Your task to perform on an android device: Look up the best rated kitchen knives on Amazon. Image 0: 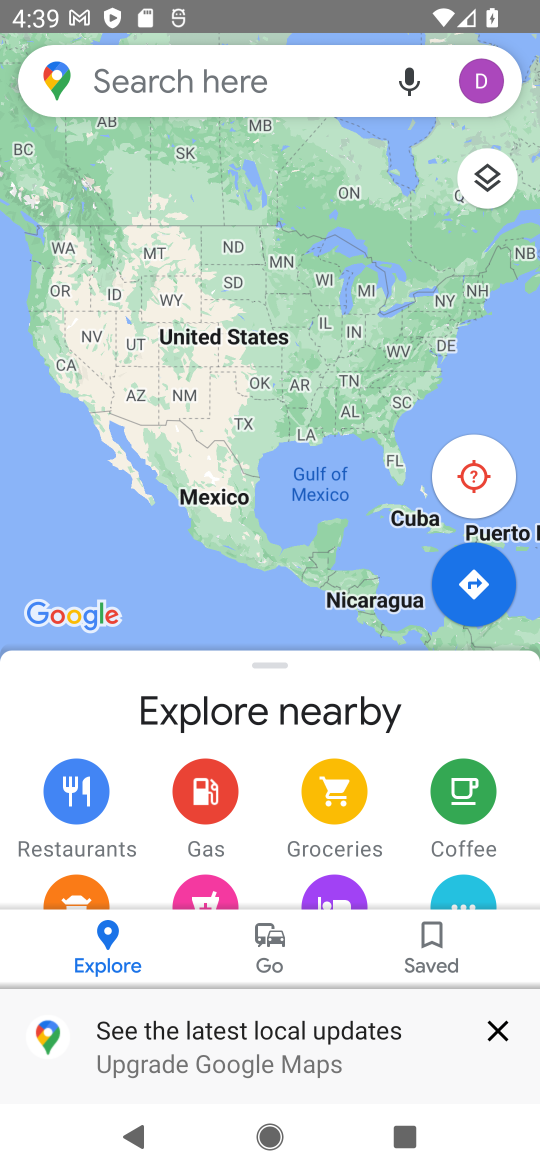
Step 0: press home button
Your task to perform on an android device: Look up the best rated kitchen knives on Amazon. Image 1: 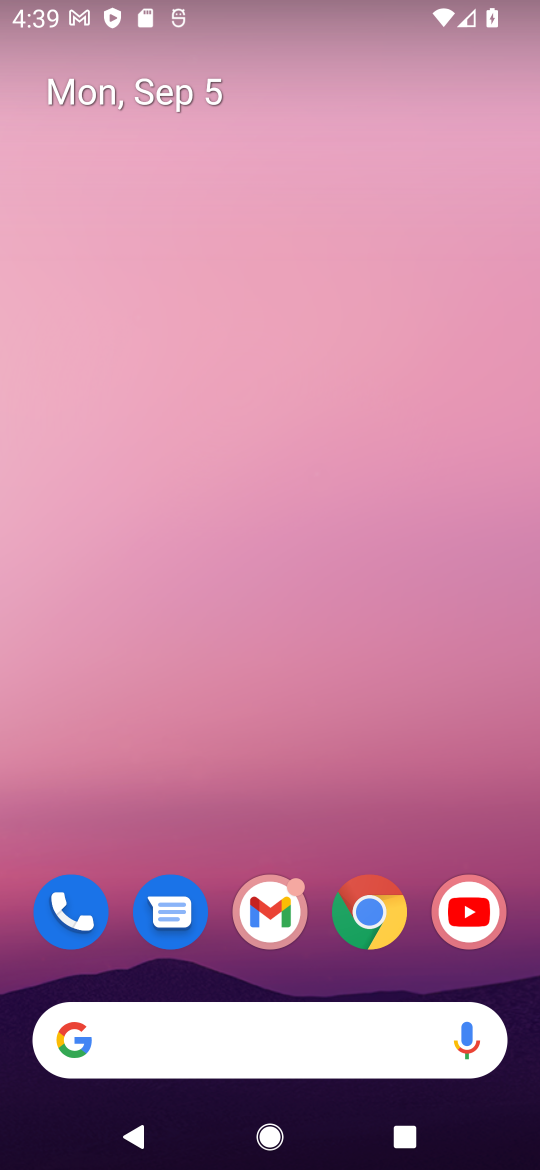
Step 1: click (380, 927)
Your task to perform on an android device: Look up the best rated kitchen knives on Amazon. Image 2: 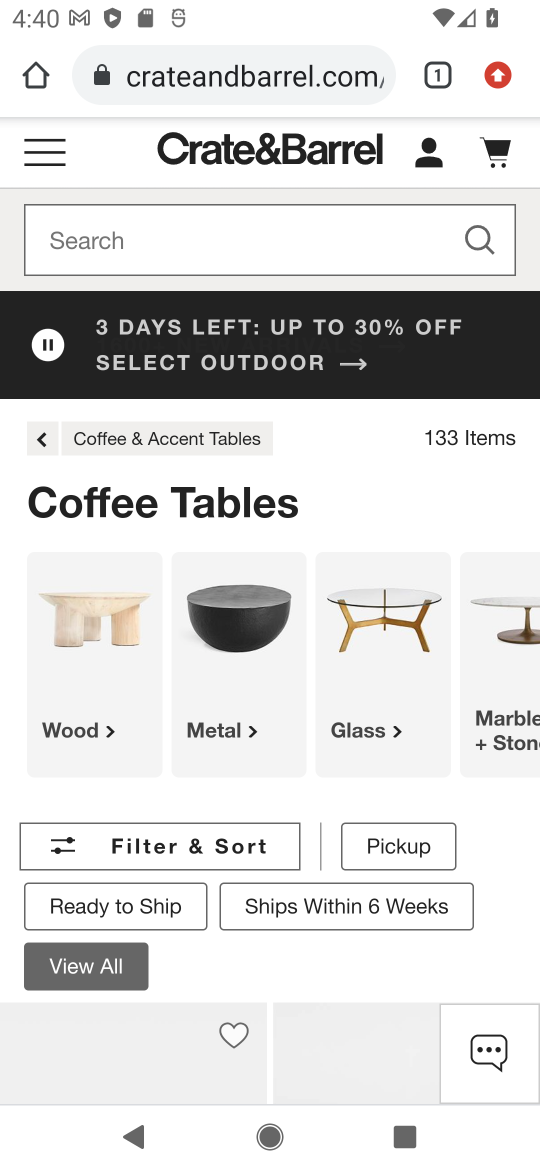
Step 2: click (256, 77)
Your task to perform on an android device: Look up the best rated kitchen knives on Amazon. Image 3: 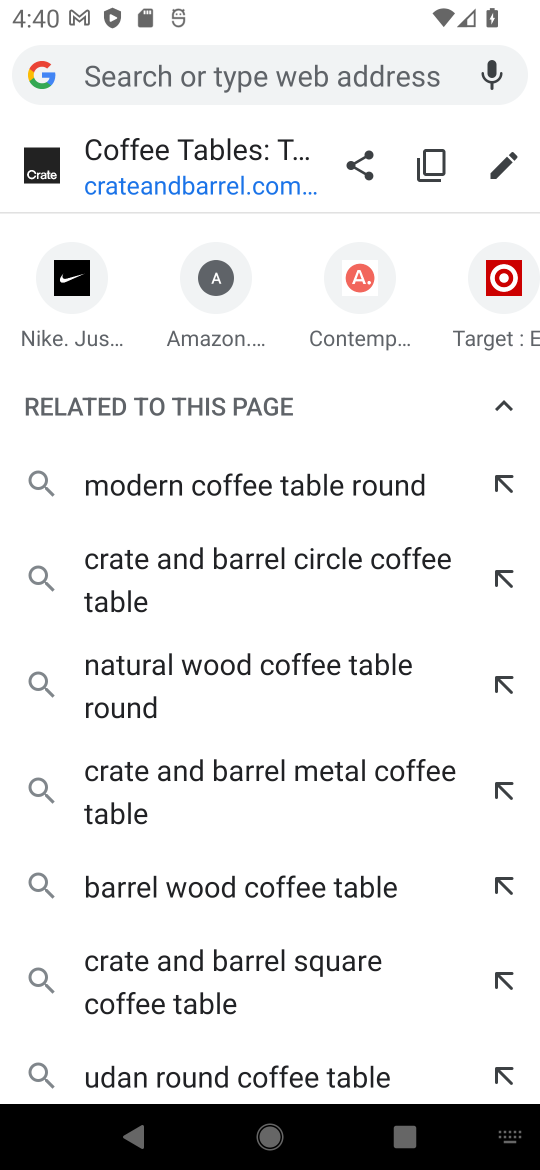
Step 3: type "amazon"
Your task to perform on an android device: Look up the best rated kitchen knives on Amazon. Image 4: 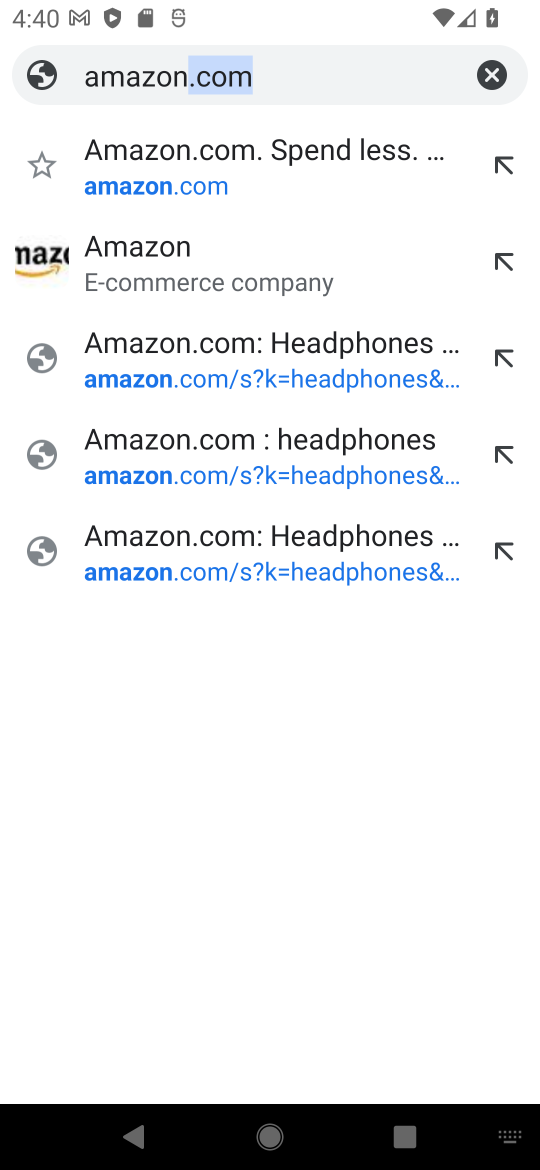
Step 4: press enter
Your task to perform on an android device: Look up the best rated kitchen knives on Amazon. Image 5: 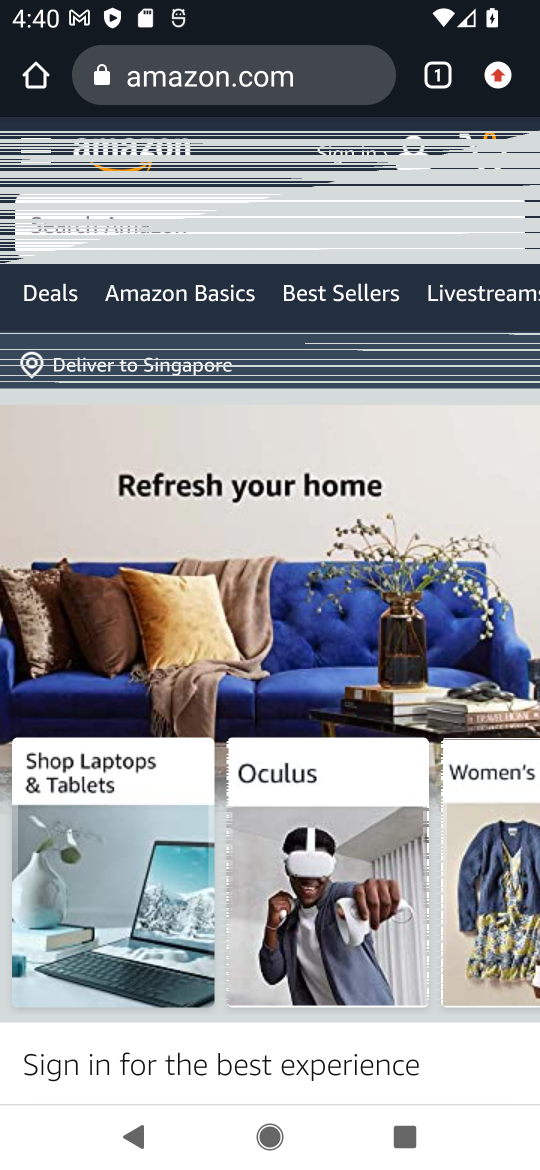
Step 5: click (264, 234)
Your task to perform on an android device: Look up the best rated kitchen knives on Amazon. Image 6: 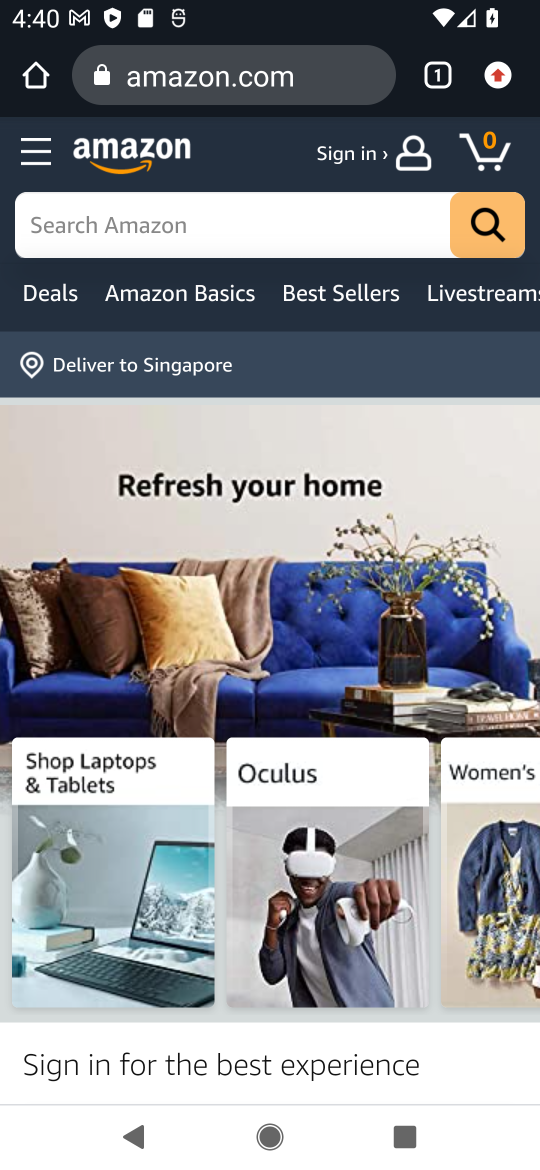
Step 6: click (269, 228)
Your task to perform on an android device: Look up the best rated kitchen knives on Amazon. Image 7: 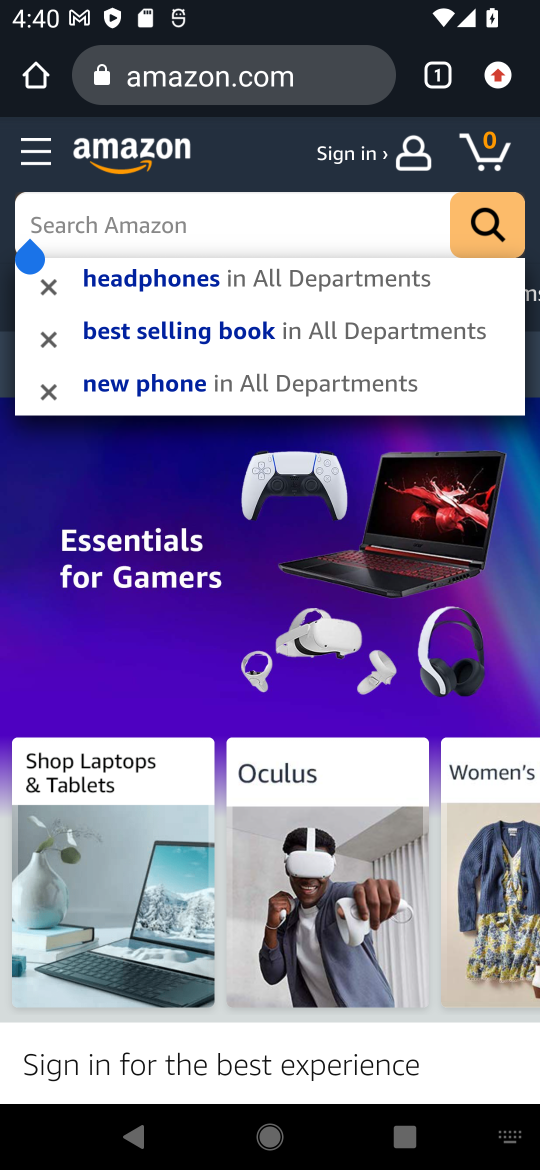
Step 7: type "kitchen knives"
Your task to perform on an android device: Look up the best rated kitchen knives on Amazon. Image 8: 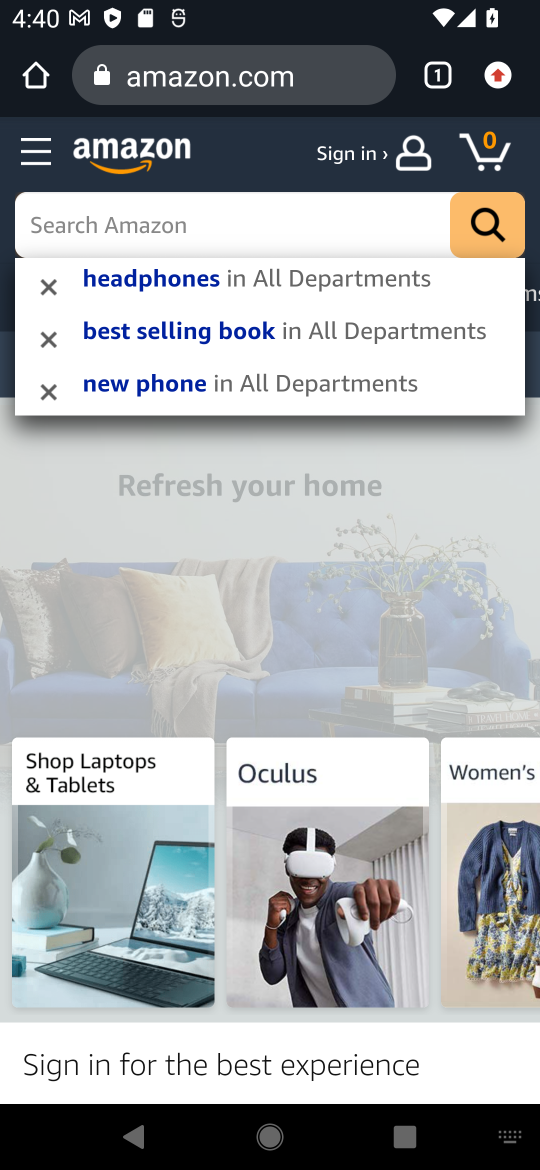
Step 8: type ""
Your task to perform on an android device: Look up the best rated kitchen knives on Amazon. Image 9: 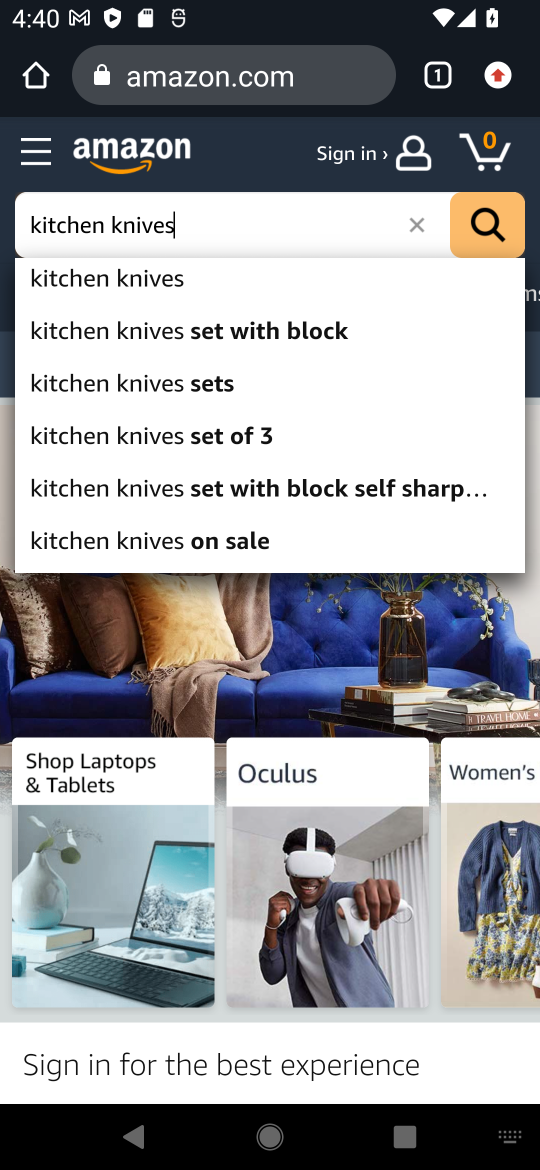
Step 9: press enter
Your task to perform on an android device: Look up the best rated kitchen knives on Amazon. Image 10: 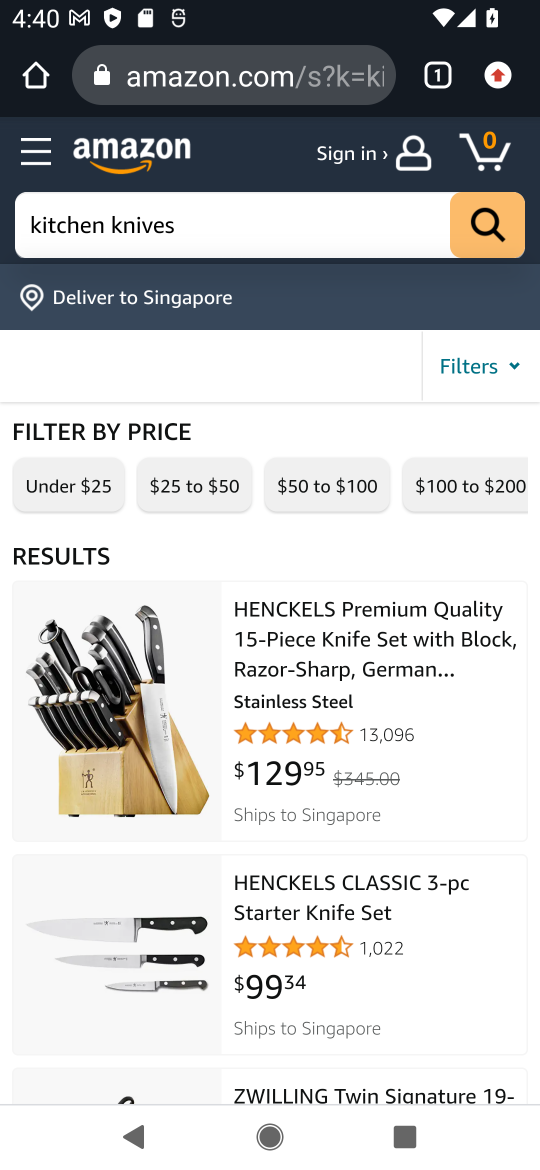
Step 10: click (490, 357)
Your task to perform on an android device: Look up the best rated kitchen knives on Amazon. Image 11: 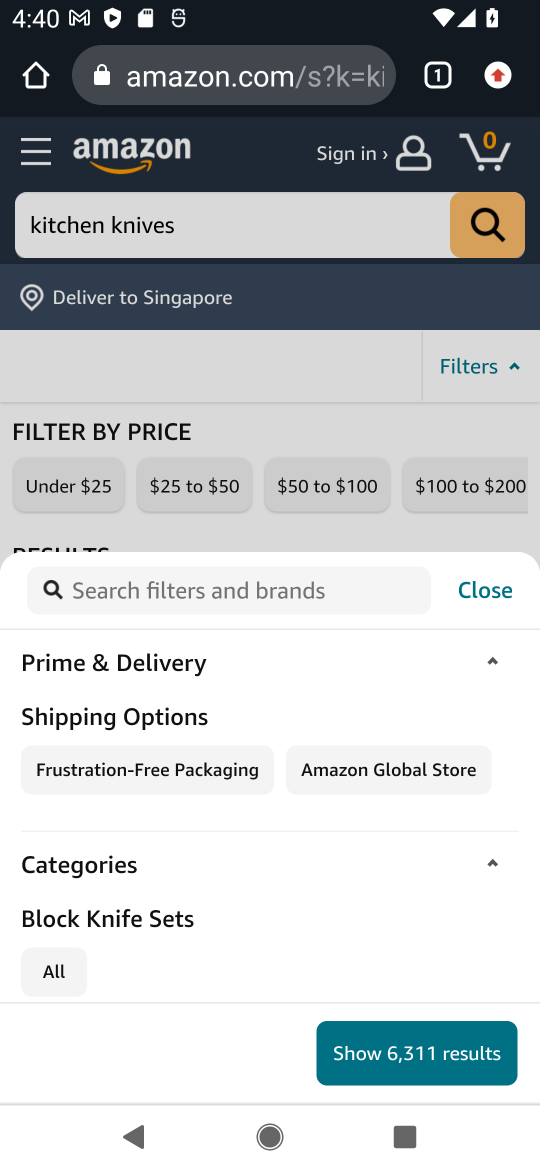
Step 11: drag from (428, 865) to (431, 610)
Your task to perform on an android device: Look up the best rated kitchen knives on Amazon. Image 12: 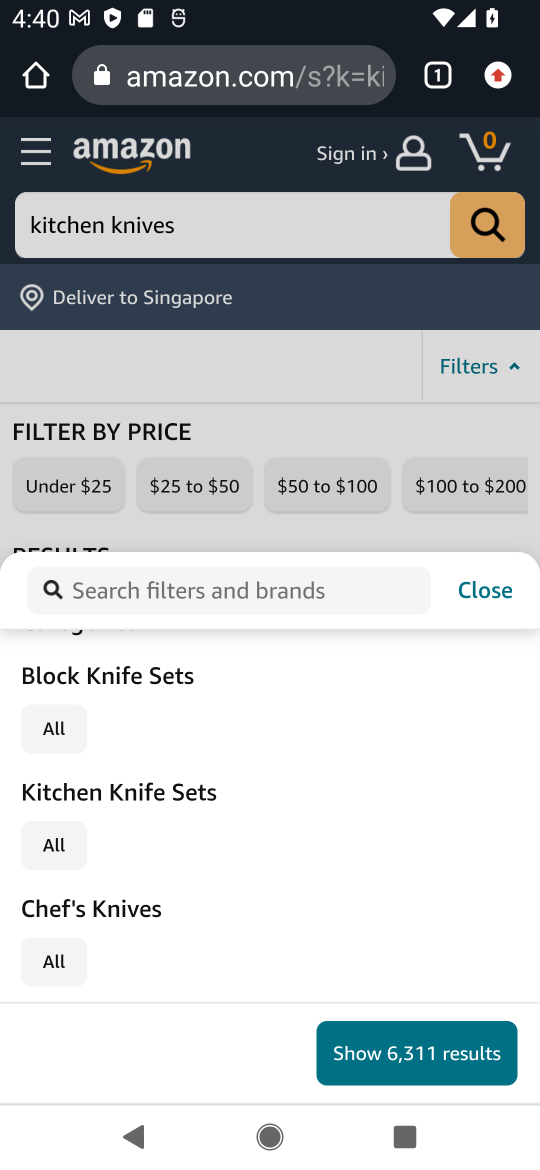
Step 12: drag from (440, 867) to (433, 678)
Your task to perform on an android device: Look up the best rated kitchen knives on Amazon. Image 13: 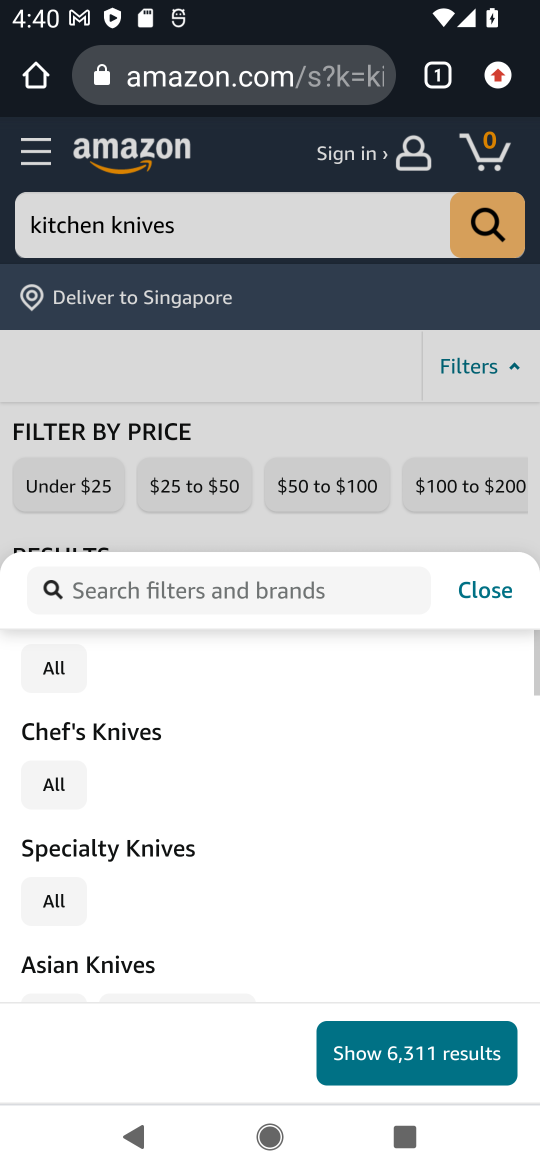
Step 13: drag from (439, 889) to (443, 680)
Your task to perform on an android device: Look up the best rated kitchen knives on Amazon. Image 14: 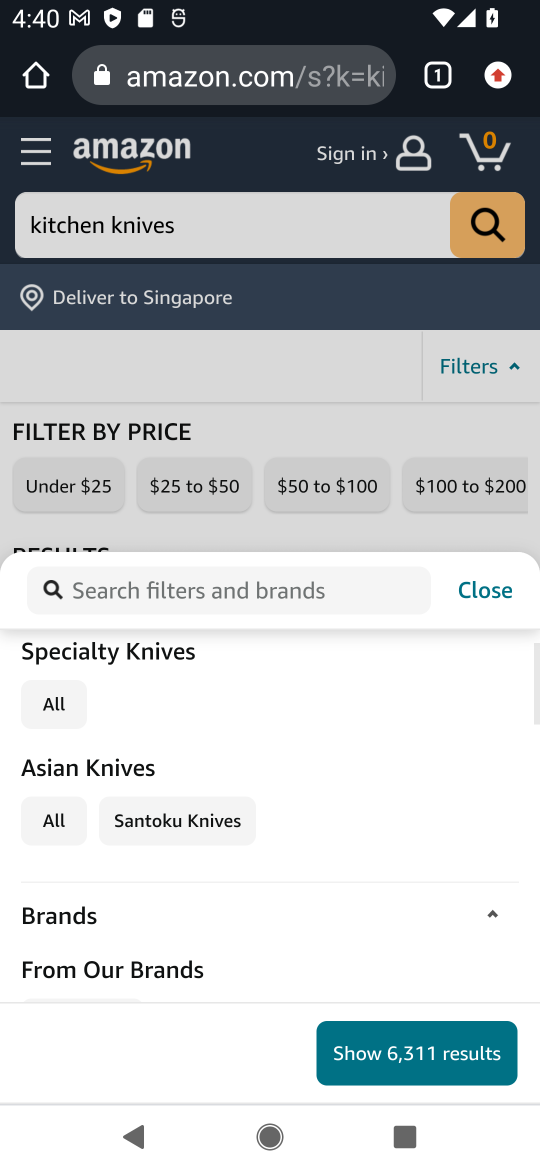
Step 14: drag from (436, 855) to (441, 734)
Your task to perform on an android device: Look up the best rated kitchen knives on Amazon. Image 15: 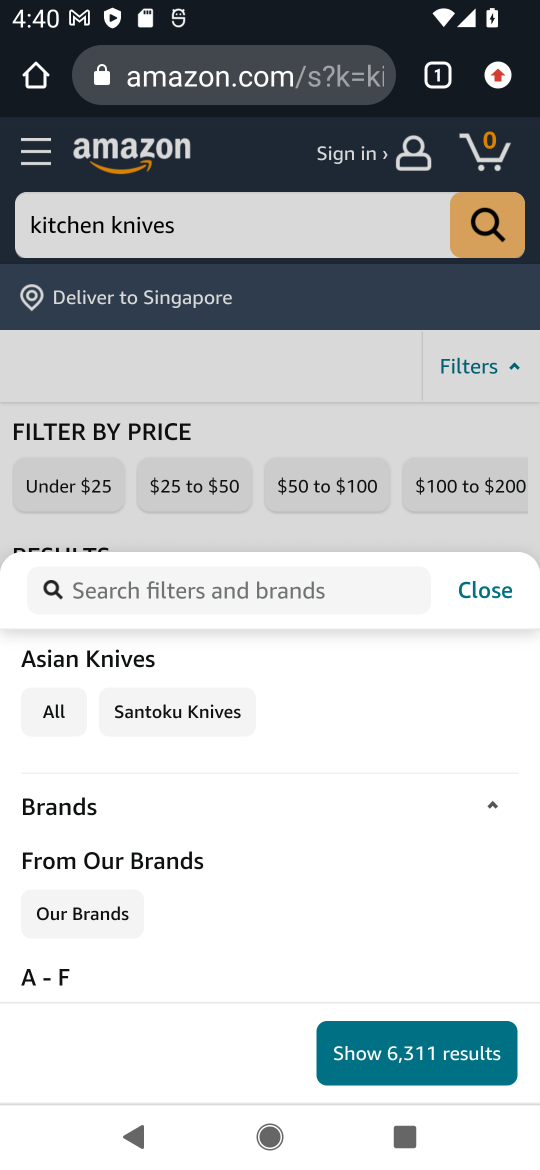
Step 15: drag from (449, 839) to (437, 593)
Your task to perform on an android device: Look up the best rated kitchen knives on Amazon. Image 16: 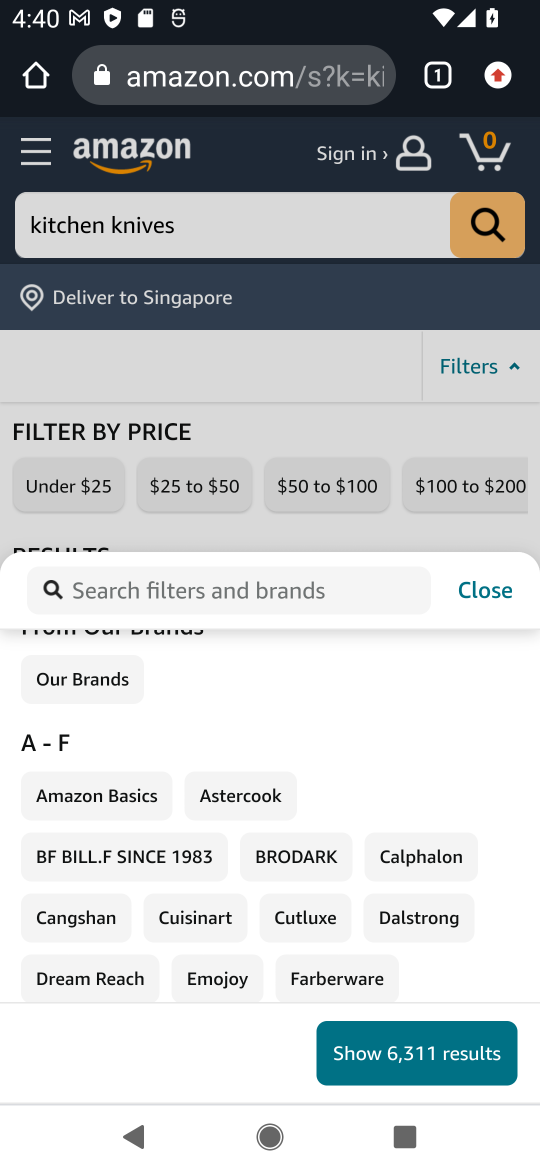
Step 16: click (506, 700)
Your task to perform on an android device: Look up the best rated kitchen knives on Amazon. Image 17: 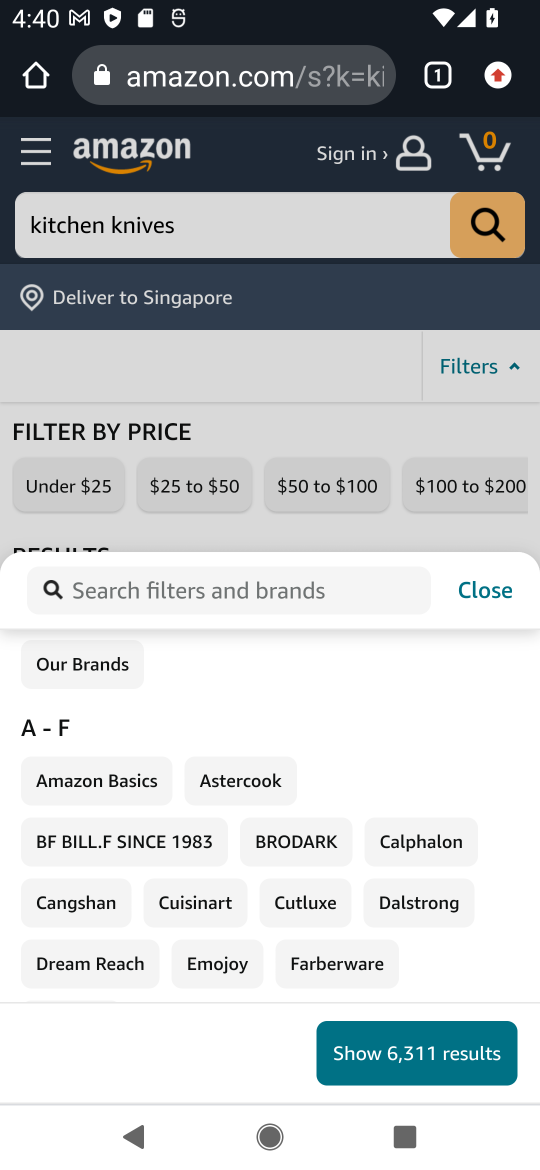
Step 17: drag from (433, 750) to (430, 664)
Your task to perform on an android device: Look up the best rated kitchen knives on Amazon. Image 18: 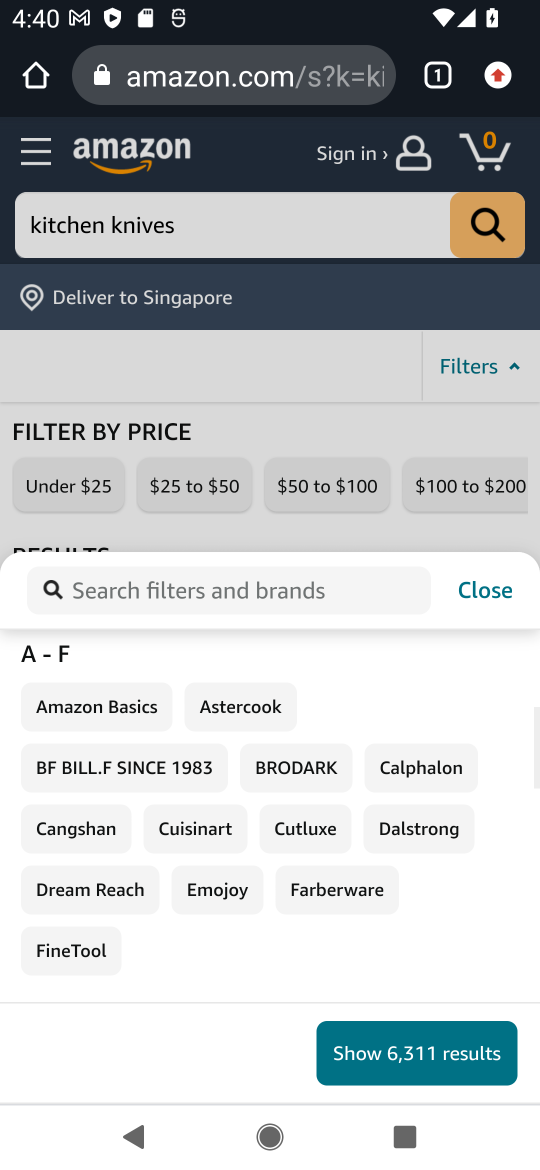
Step 18: drag from (432, 888) to (426, 666)
Your task to perform on an android device: Look up the best rated kitchen knives on Amazon. Image 19: 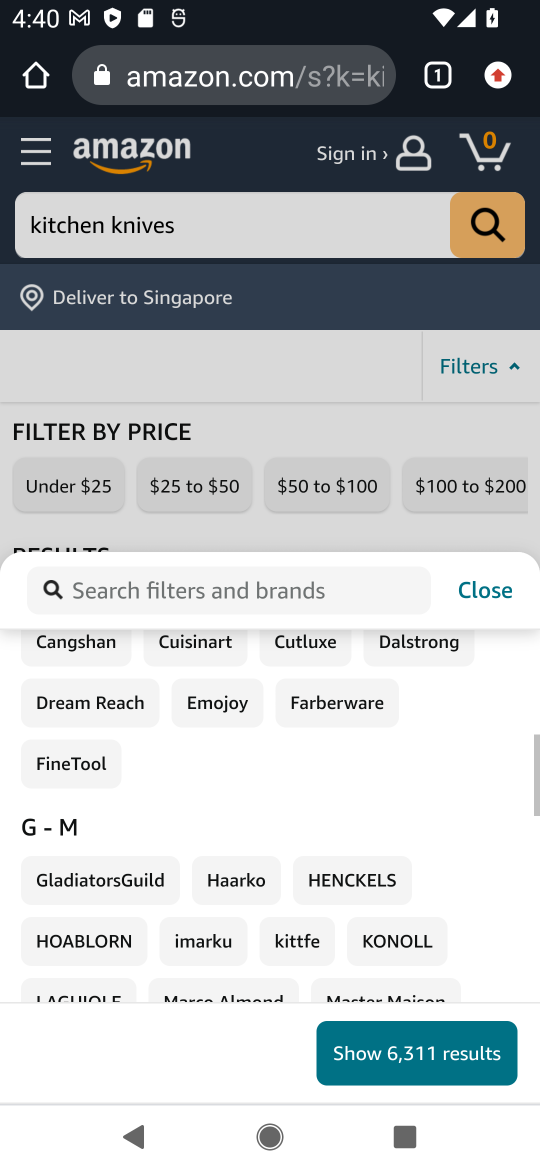
Step 19: drag from (410, 882) to (400, 667)
Your task to perform on an android device: Look up the best rated kitchen knives on Amazon. Image 20: 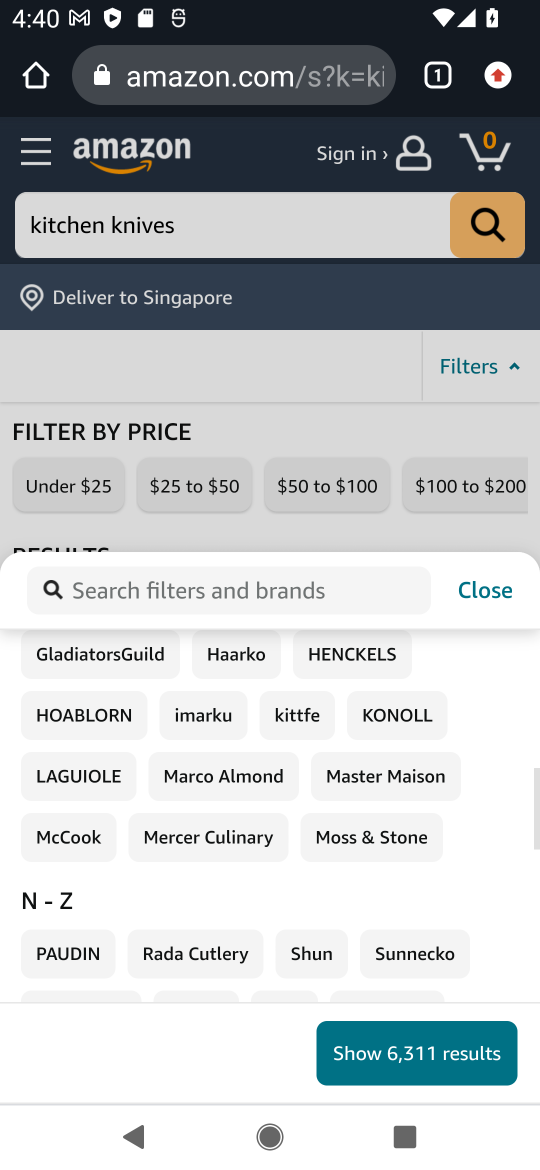
Step 20: click (406, 678)
Your task to perform on an android device: Look up the best rated kitchen knives on Amazon. Image 21: 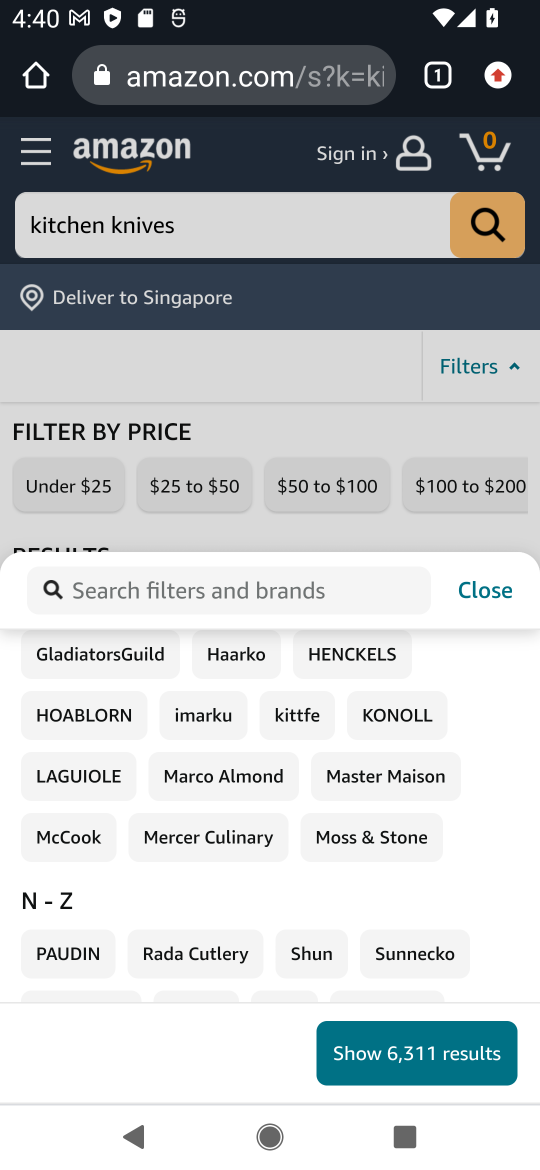
Step 21: drag from (417, 838) to (434, 586)
Your task to perform on an android device: Look up the best rated kitchen knives on Amazon. Image 22: 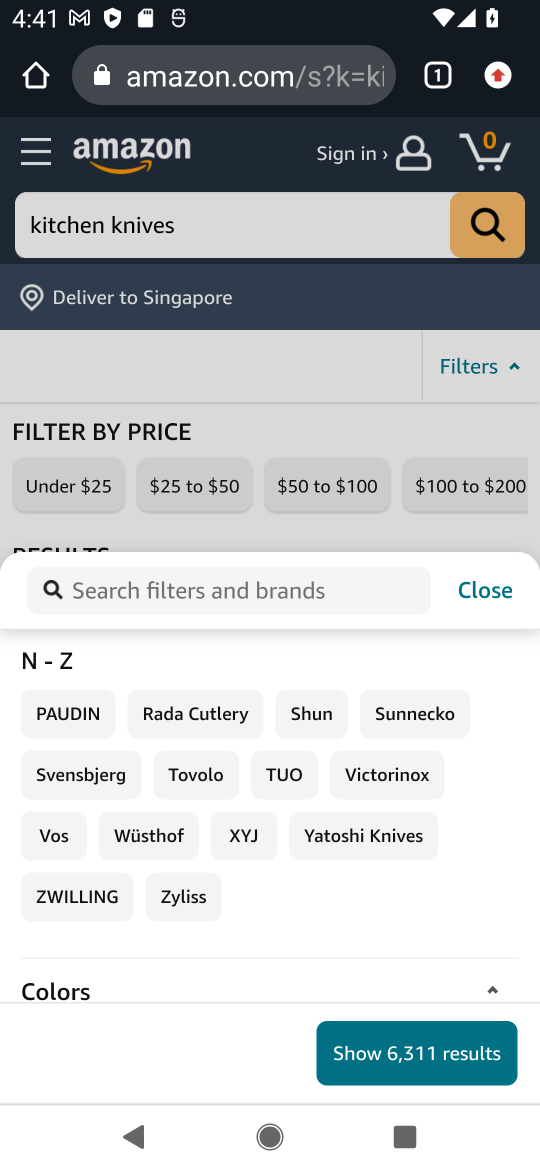
Step 22: drag from (393, 756) to (405, 631)
Your task to perform on an android device: Look up the best rated kitchen knives on Amazon. Image 23: 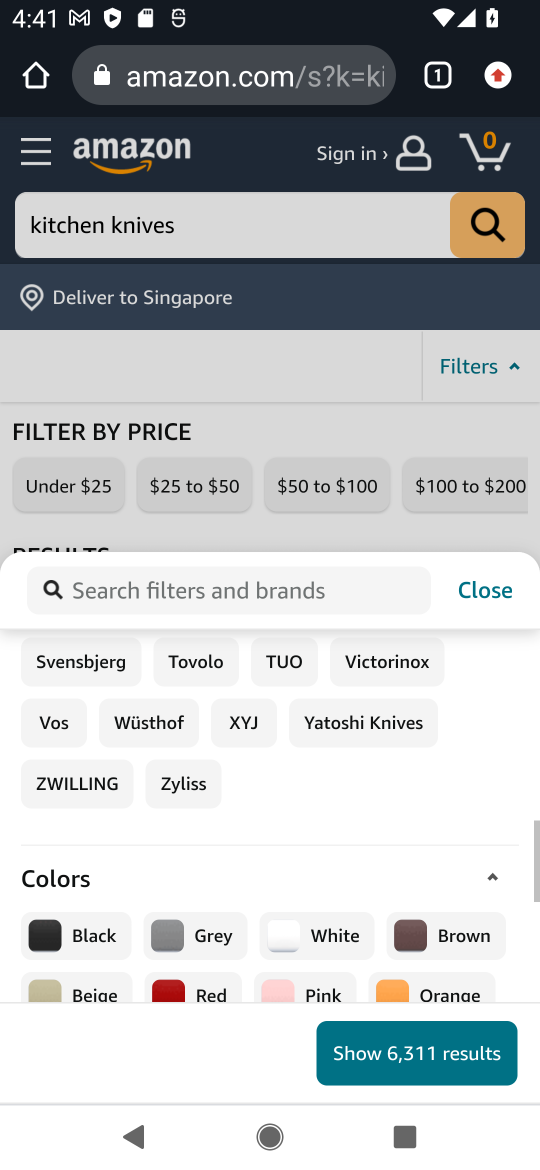
Step 23: drag from (377, 926) to (386, 637)
Your task to perform on an android device: Look up the best rated kitchen knives on Amazon. Image 24: 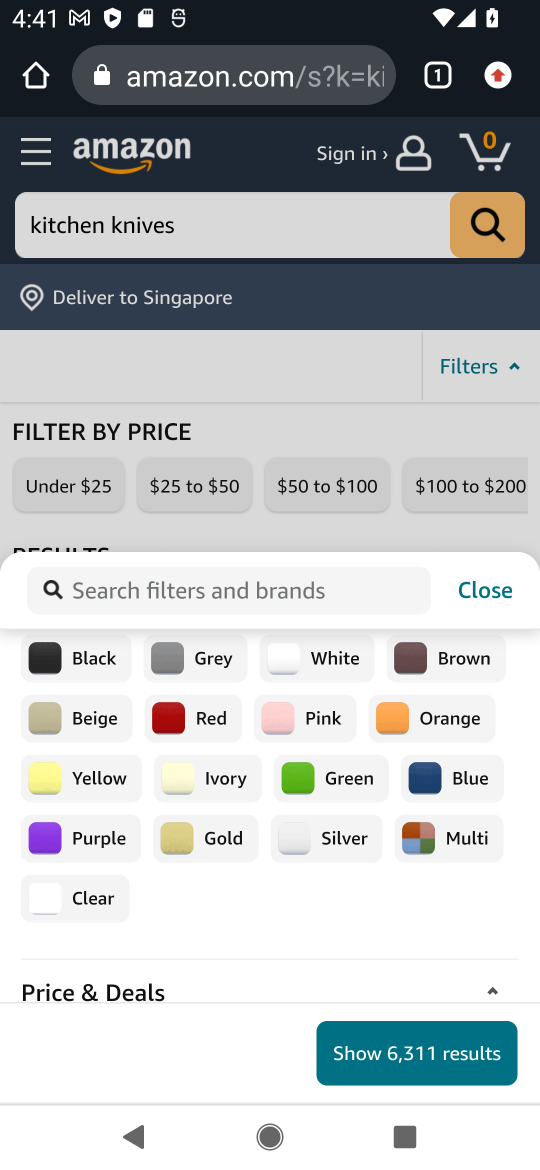
Step 24: drag from (394, 956) to (397, 636)
Your task to perform on an android device: Look up the best rated kitchen knives on Amazon. Image 25: 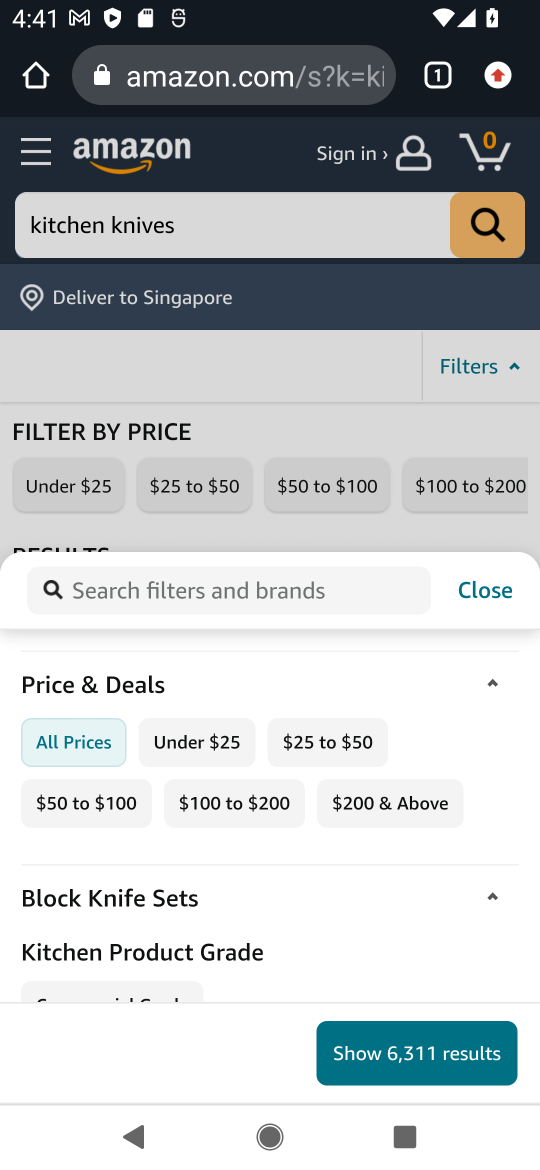
Step 25: drag from (360, 923) to (369, 663)
Your task to perform on an android device: Look up the best rated kitchen knives on Amazon. Image 26: 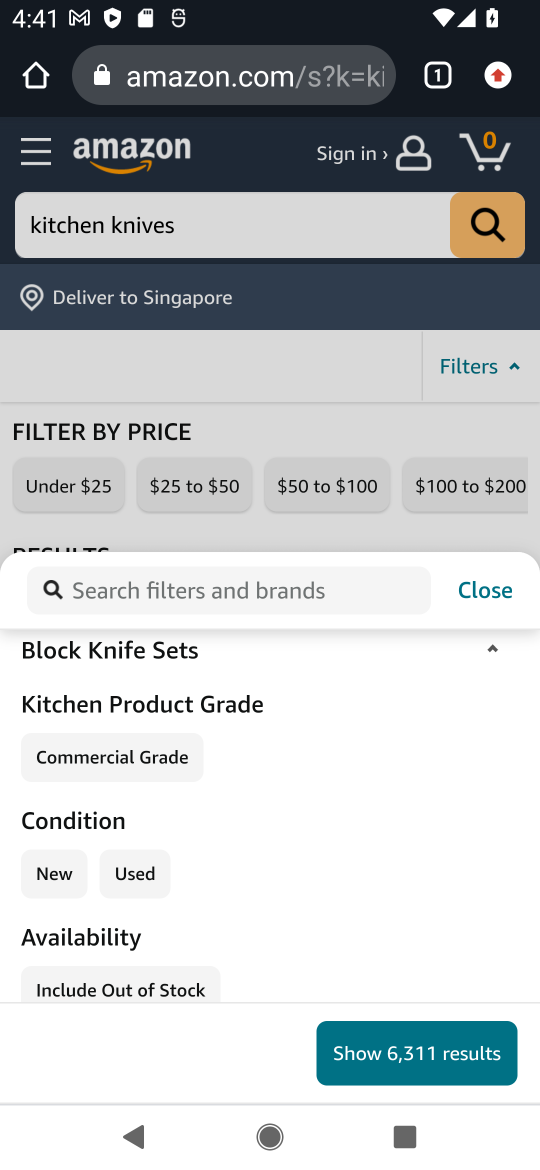
Step 26: drag from (309, 843) to (320, 683)
Your task to perform on an android device: Look up the best rated kitchen knives on Amazon. Image 27: 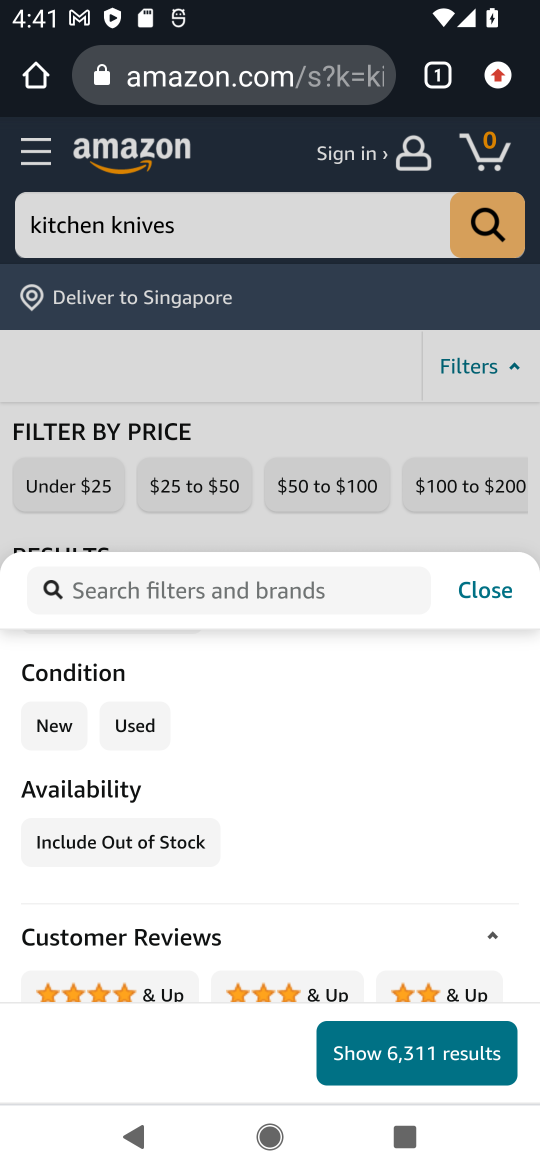
Step 27: click (364, 744)
Your task to perform on an android device: Look up the best rated kitchen knives on Amazon. Image 28: 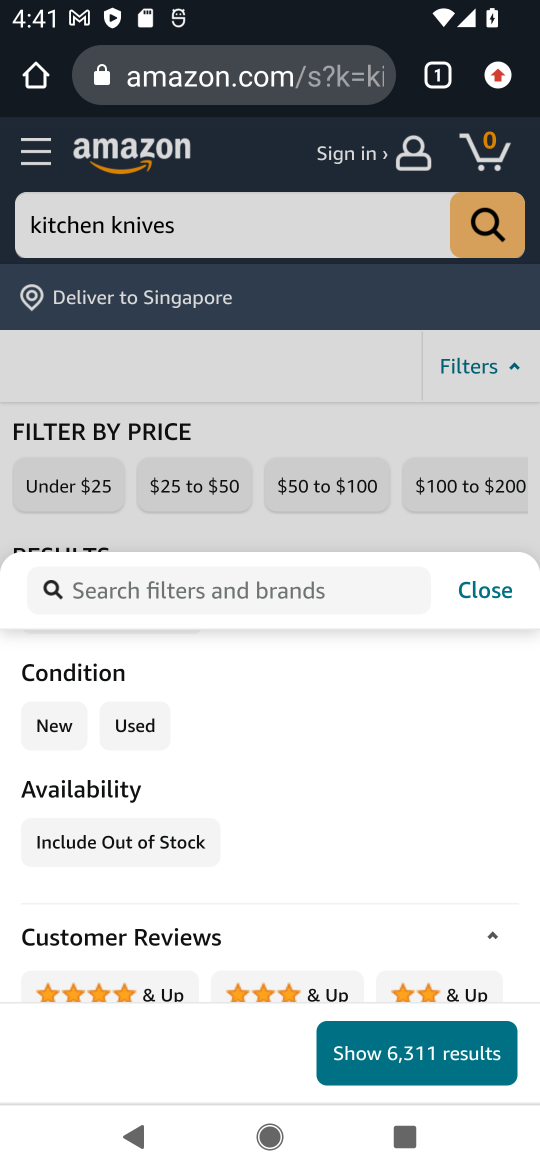
Step 28: drag from (372, 865) to (368, 703)
Your task to perform on an android device: Look up the best rated kitchen knives on Amazon. Image 29: 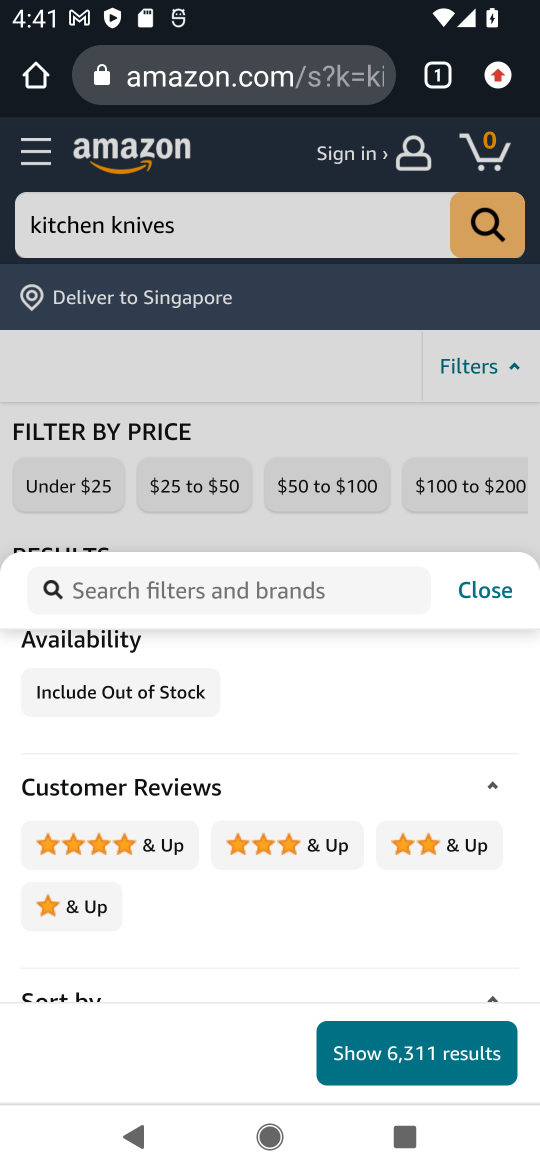
Step 29: click (126, 829)
Your task to perform on an android device: Look up the best rated kitchen knives on Amazon. Image 30: 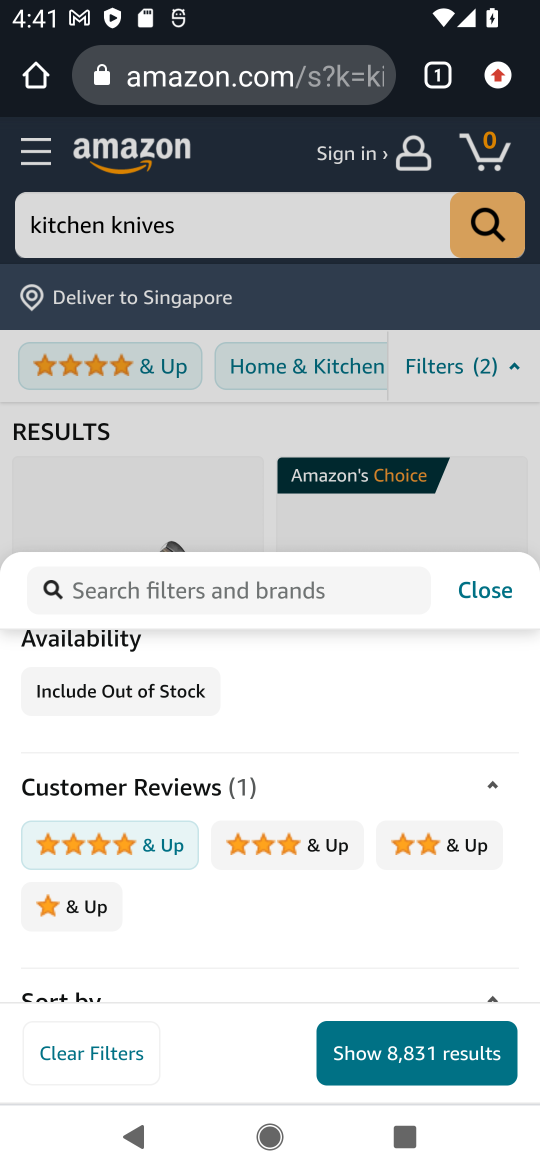
Step 30: drag from (389, 888) to (421, 1050)
Your task to perform on an android device: Look up the best rated kitchen knives on Amazon. Image 31: 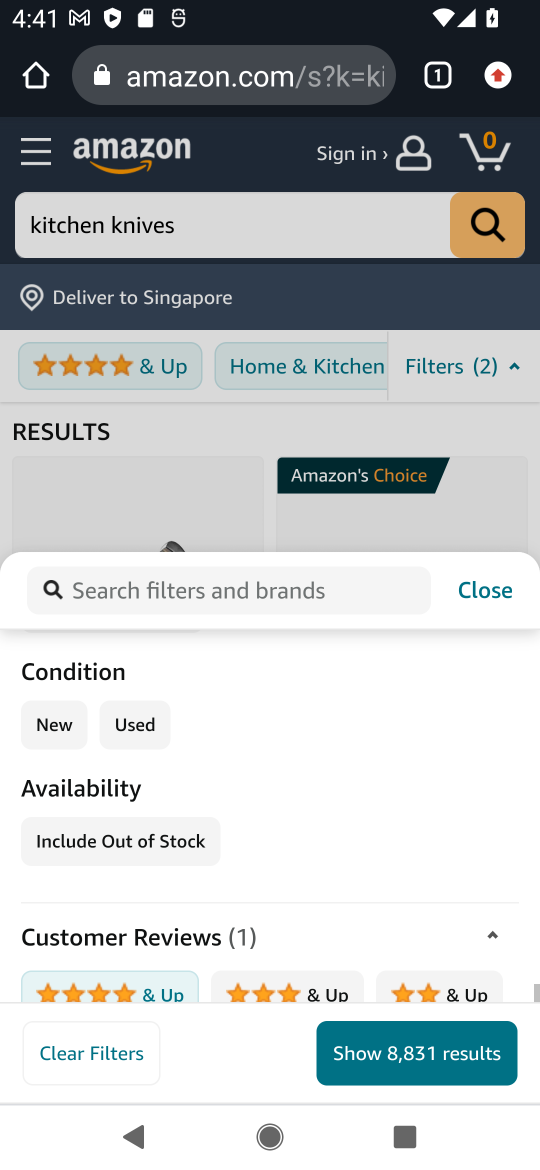
Step 31: drag from (371, 771) to (356, 961)
Your task to perform on an android device: Look up the best rated kitchen knives on Amazon. Image 32: 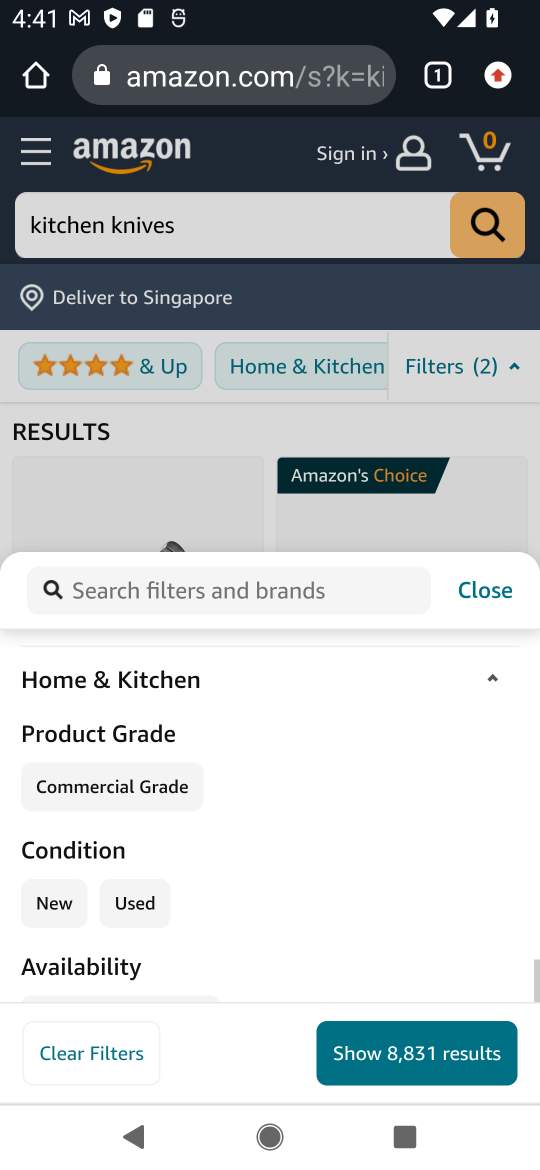
Step 32: drag from (339, 720) to (364, 961)
Your task to perform on an android device: Look up the best rated kitchen knives on Amazon. Image 33: 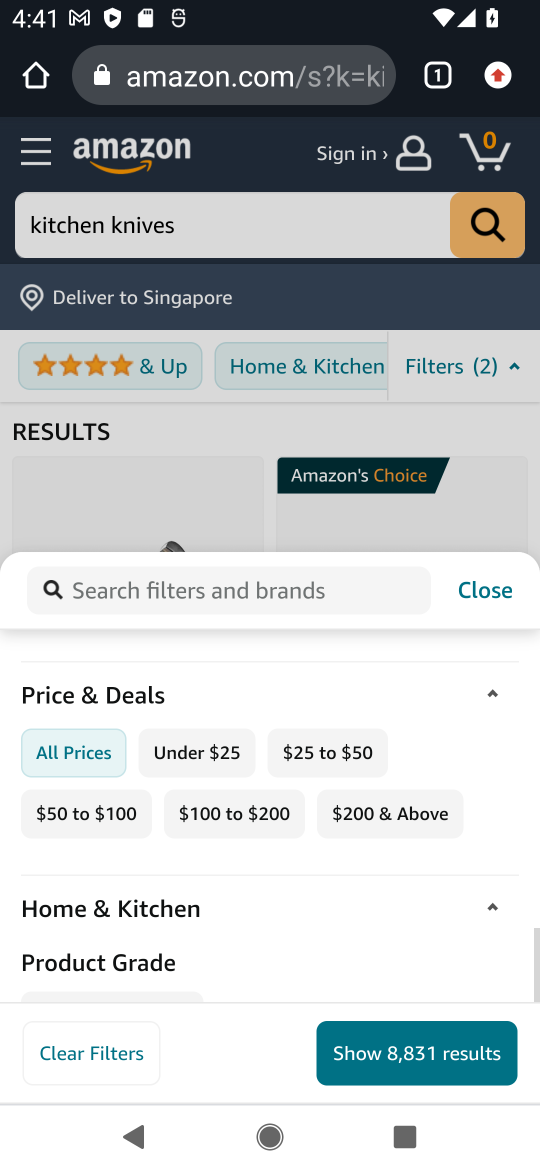
Step 33: drag from (368, 768) to (375, 894)
Your task to perform on an android device: Look up the best rated kitchen knives on Amazon. Image 34: 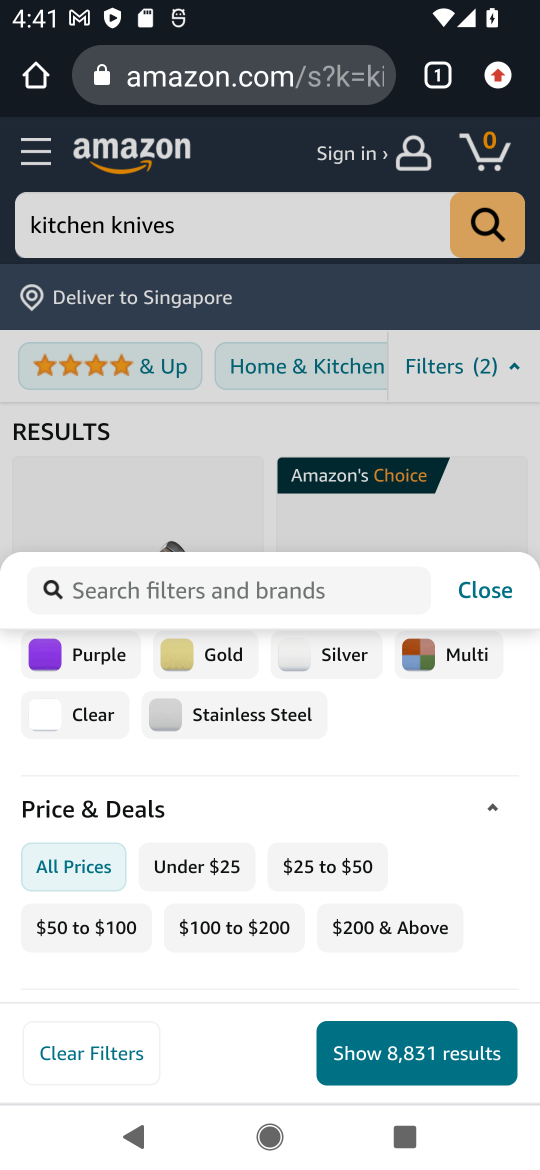
Step 34: drag from (407, 765) to (406, 1049)
Your task to perform on an android device: Look up the best rated kitchen knives on Amazon. Image 35: 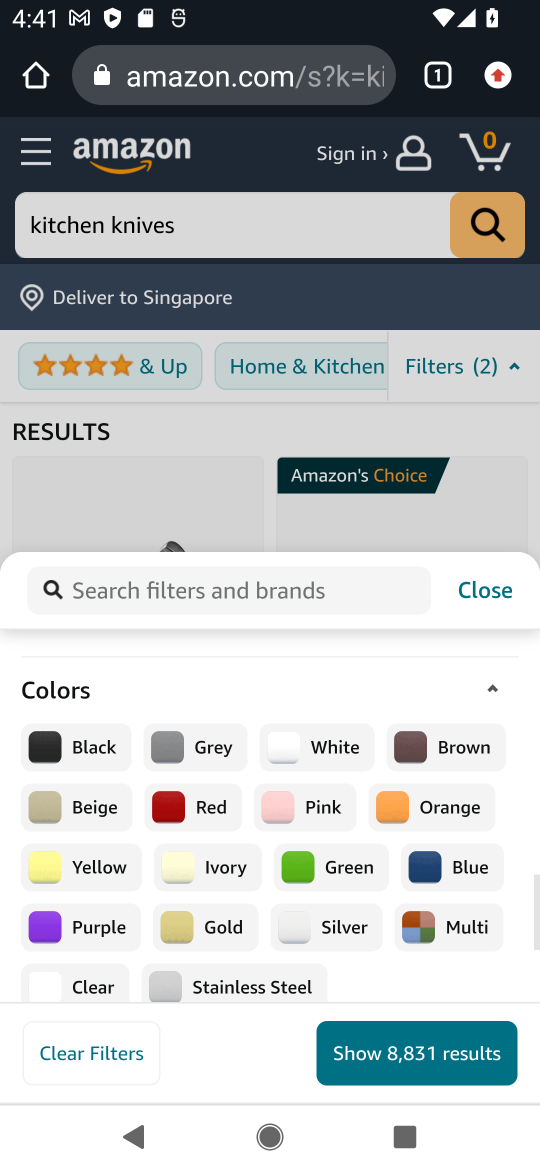
Step 35: drag from (372, 796) to (375, 987)
Your task to perform on an android device: Look up the best rated kitchen knives on Amazon. Image 36: 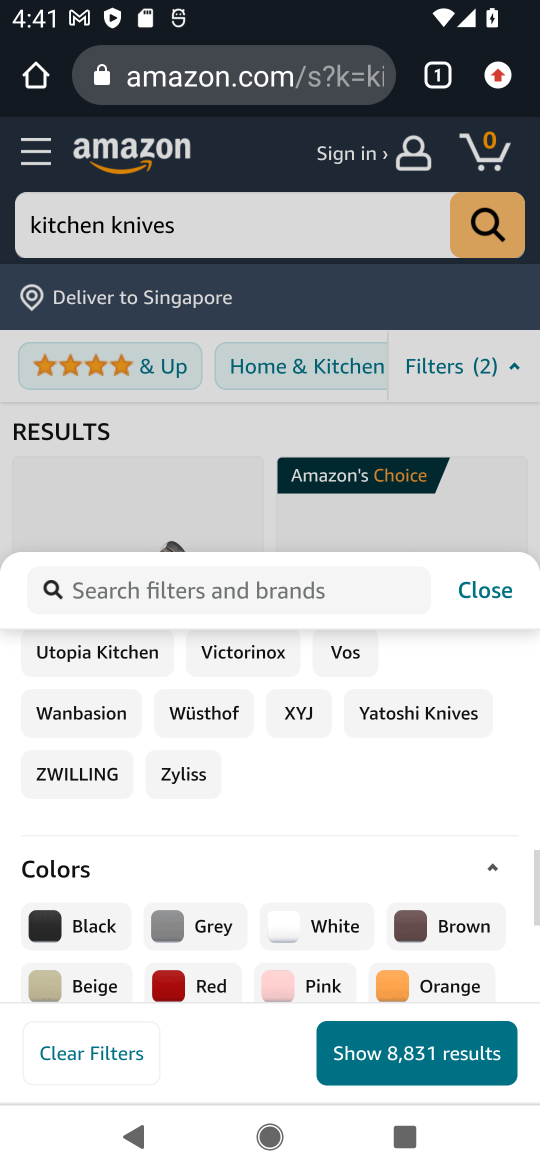
Step 36: drag from (337, 716) to (341, 920)
Your task to perform on an android device: Look up the best rated kitchen knives on Amazon. Image 37: 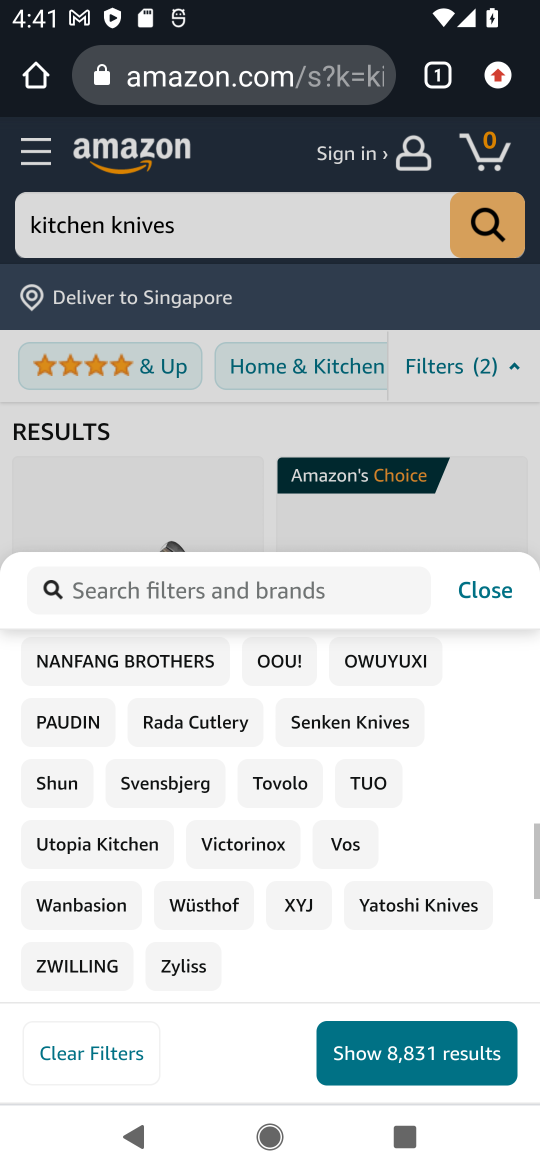
Step 37: drag from (379, 699) to (395, 947)
Your task to perform on an android device: Look up the best rated kitchen knives on Amazon. Image 38: 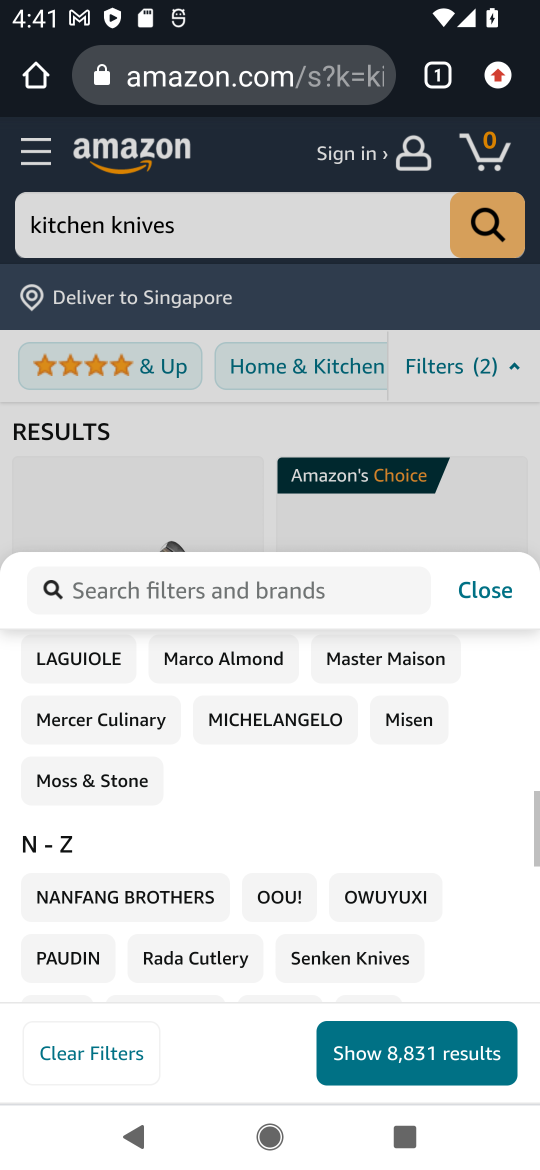
Step 38: drag from (361, 850) to (361, 903)
Your task to perform on an android device: Look up the best rated kitchen knives on Amazon. Image 39: 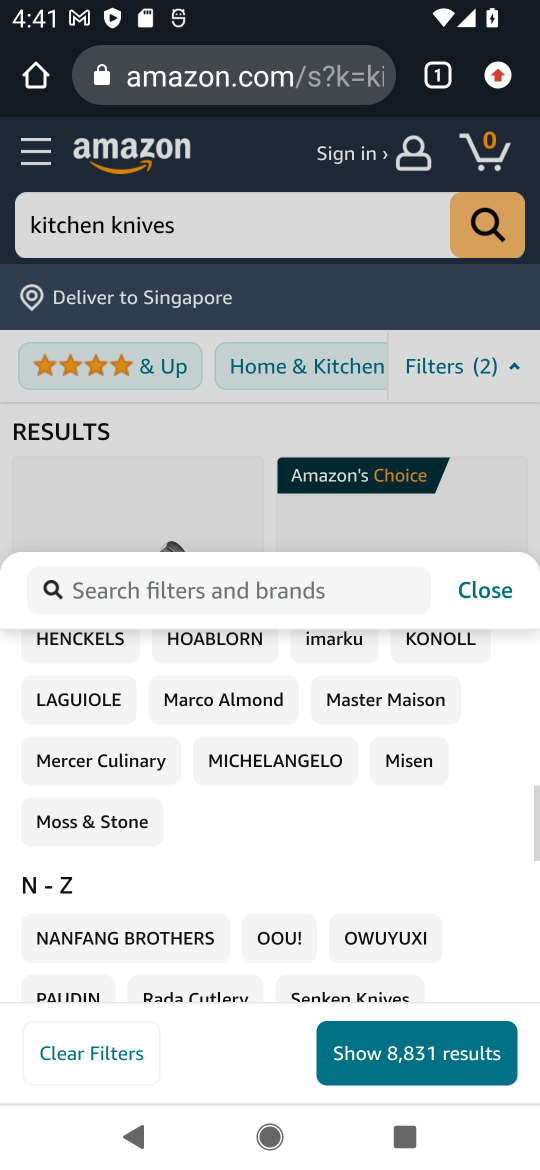
Step 39: drag from (365, 776) to (360, 905)
Your task to perform on an android device: Look up the best rated kitchen knives on Amazon. Image 40: 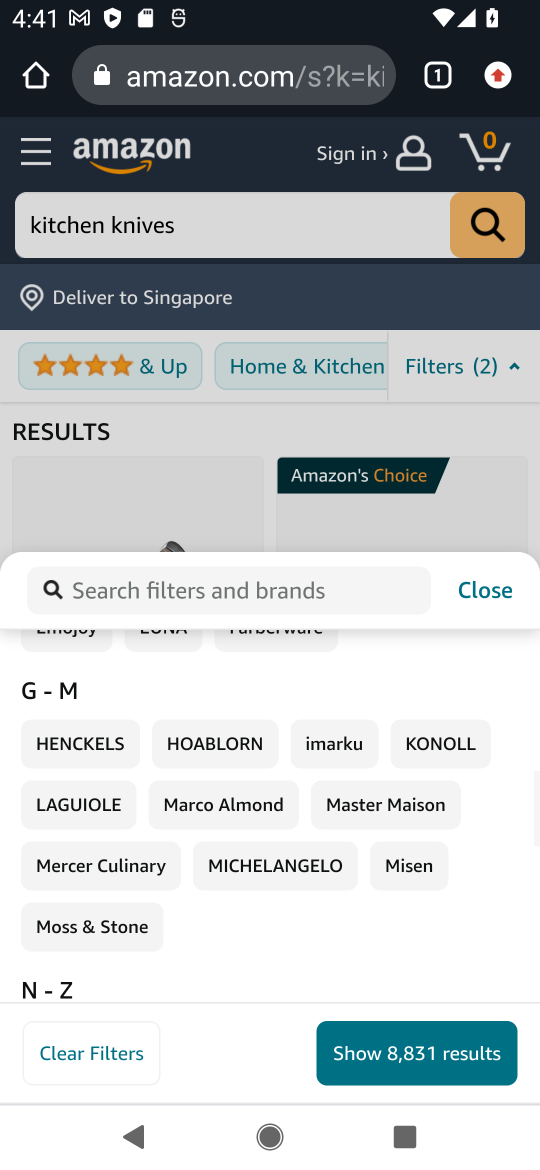
Step 40: drag from (358, 721) to (358, 889)
Your task to perform on an android device: Look up the best rated kitchen knives on Amazon. Image 41: 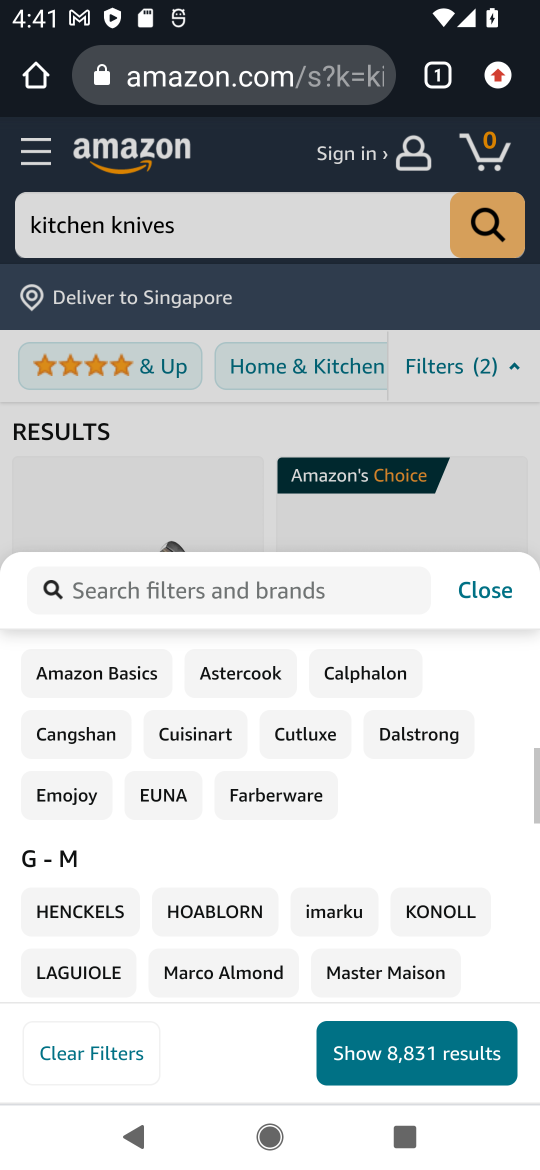
Step 41: click (360, 870)
Your task to perform on an android device: Look up the best rated kitchen knives on Amazon. Image 42: 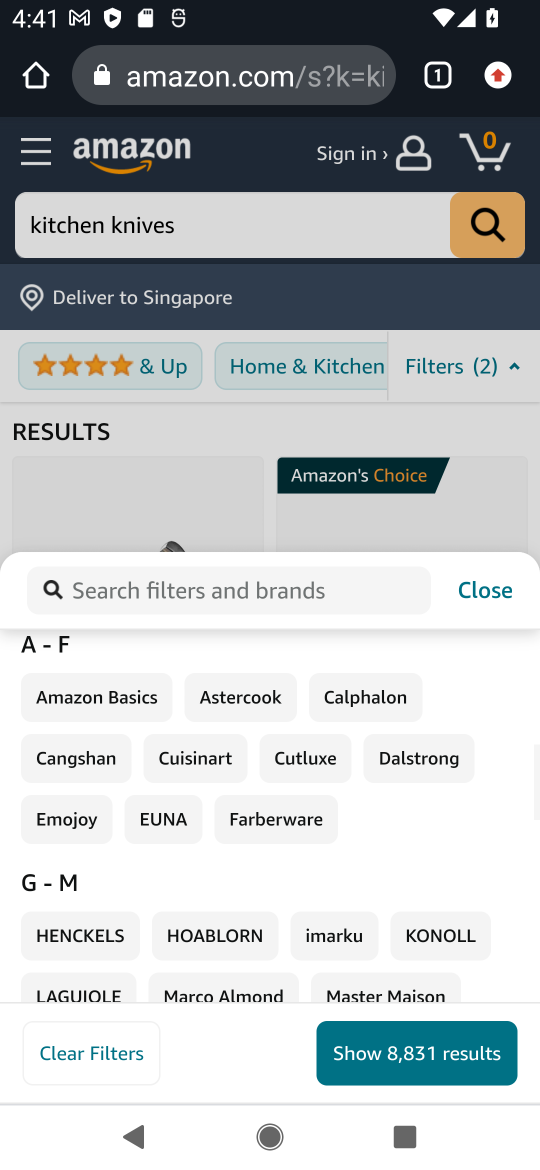
Step 42: drag from (349, 683) to (351, 943)
Your task to perform on an android device: Look up the best rated kitchen knives on Amazon. Image 43: 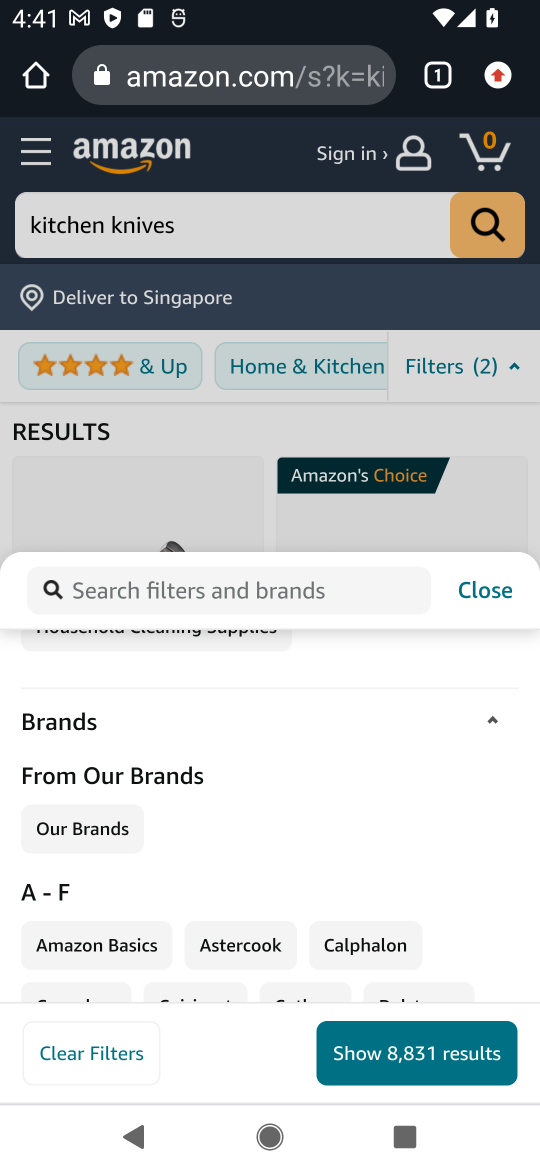
Step 43: drag from (348, 733) to (351, 919)
Your task to perform on an android device: Look up the best rated kitchen knives on Amazon. Image 44: 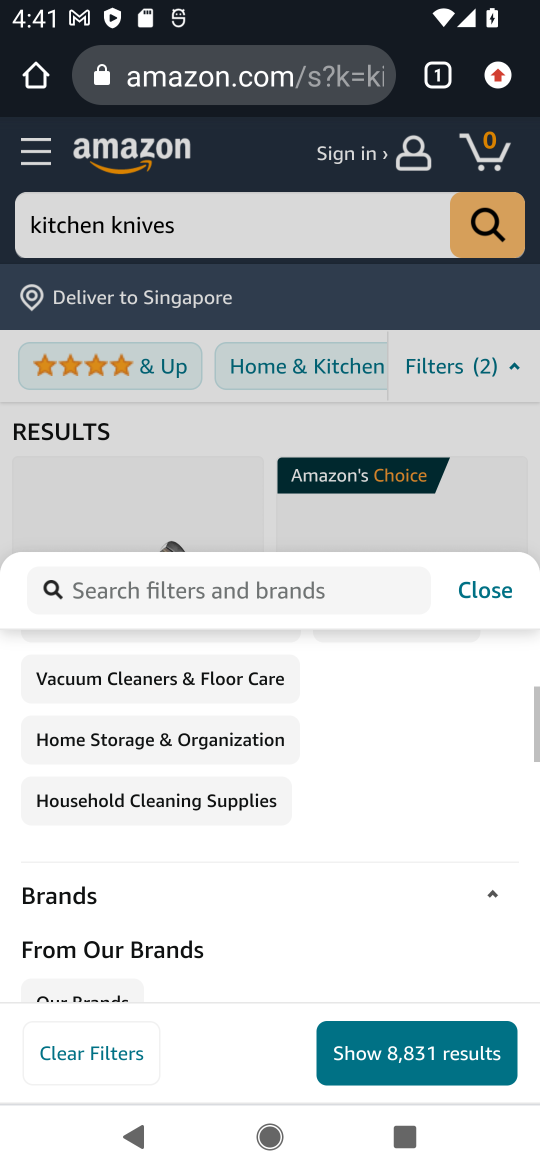
Step 44: drag from (362, 718) to (382, 891)
Your task to perform on an android device: Look up the best rated kitchen knives on Amazon. Image 45: 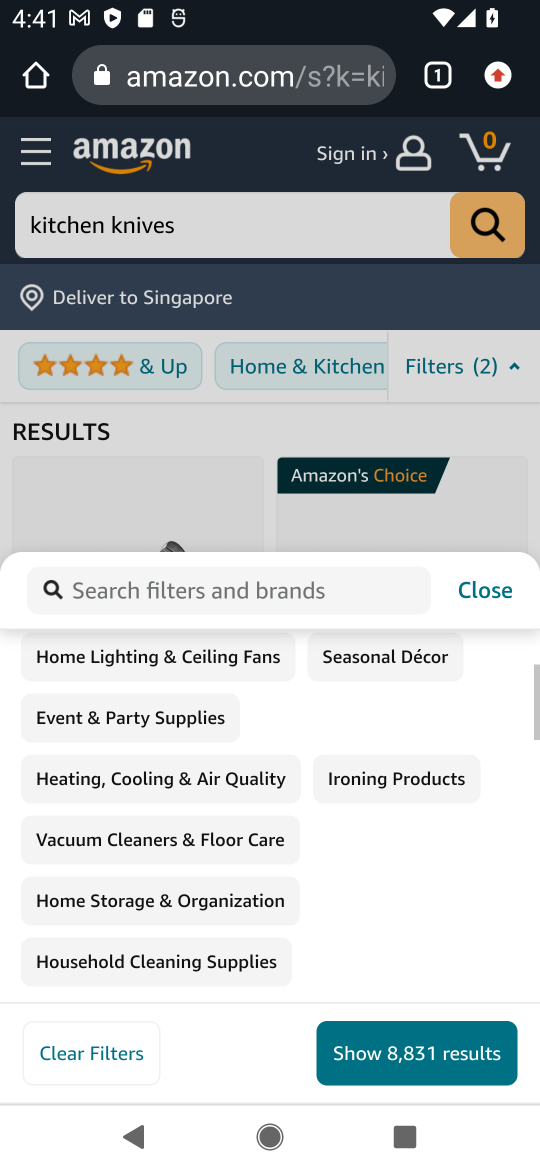
Step 45: drag from (375, 866) to (375, 938)
Your task to perform on an android device: Look up the best rated kitchen knives on Amazon. Image 46: 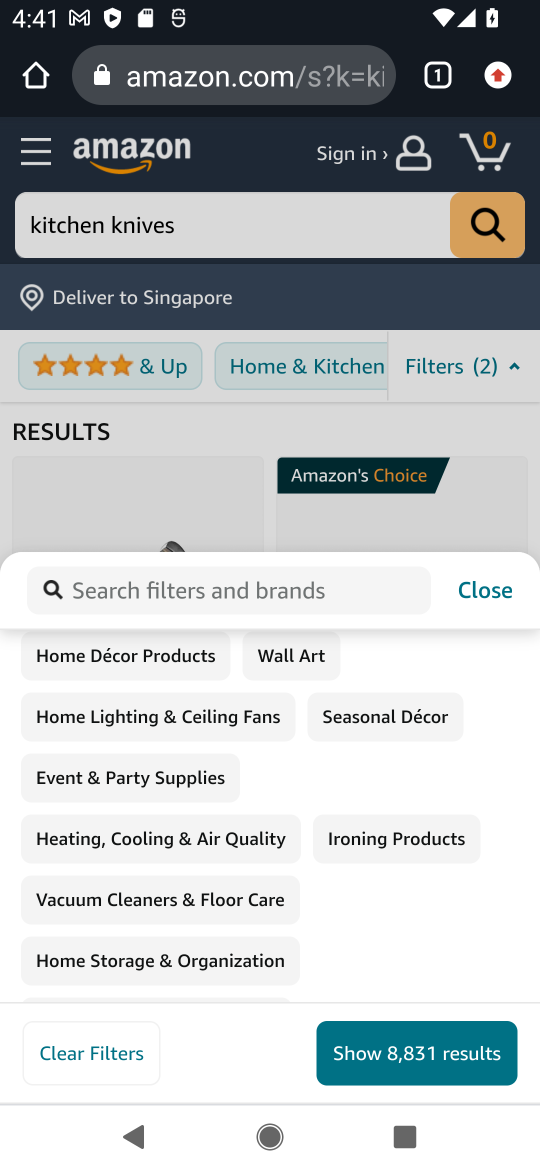
Step 46: drag from (363, 704) to (364, 936)
Your task to perform on an android device: Look up the best rated kitchen knives on Amazon. Image 47: 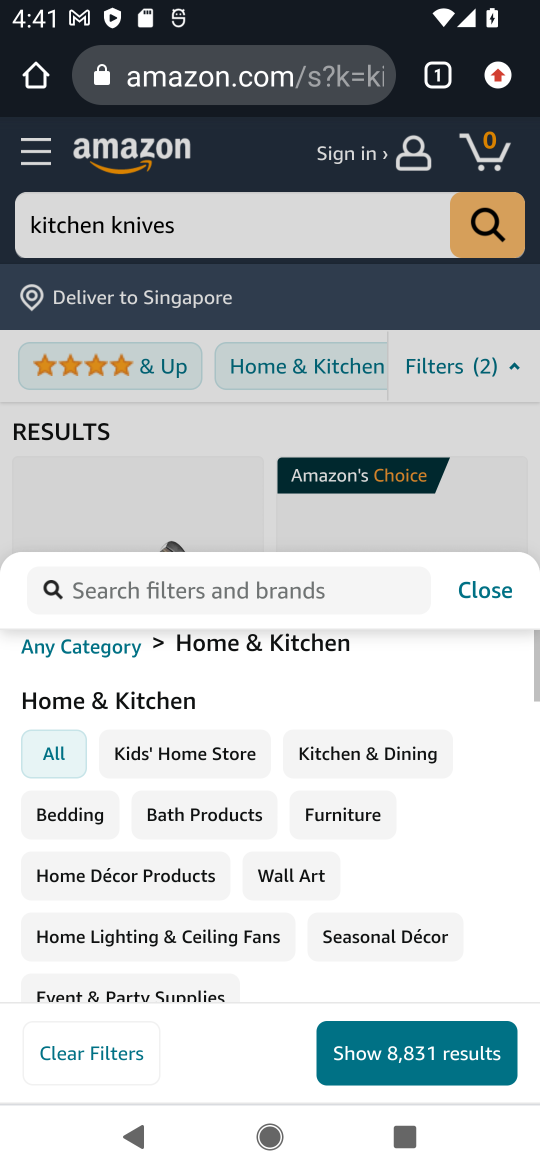
Step 47: click (381, 919)
Your task to perform on an android device: Look up the best rated kitchen knives on Amazon. Image 48: 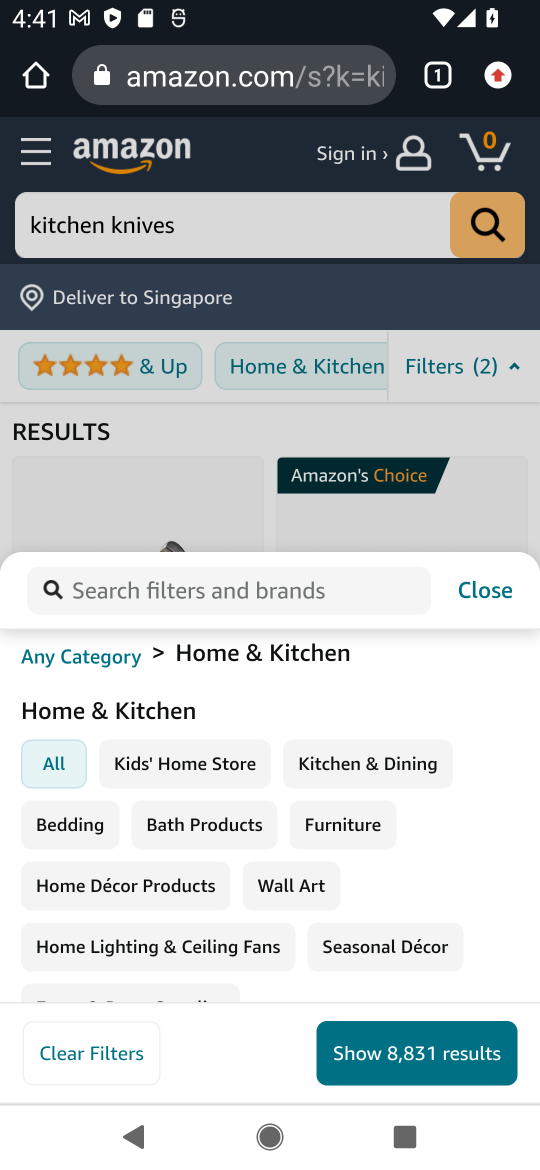
Step 48: drag from (346, 728) to (349, 920)
Your task to perform on an android device: Look up the best rated kitchen knives on Amazon. Image 49: 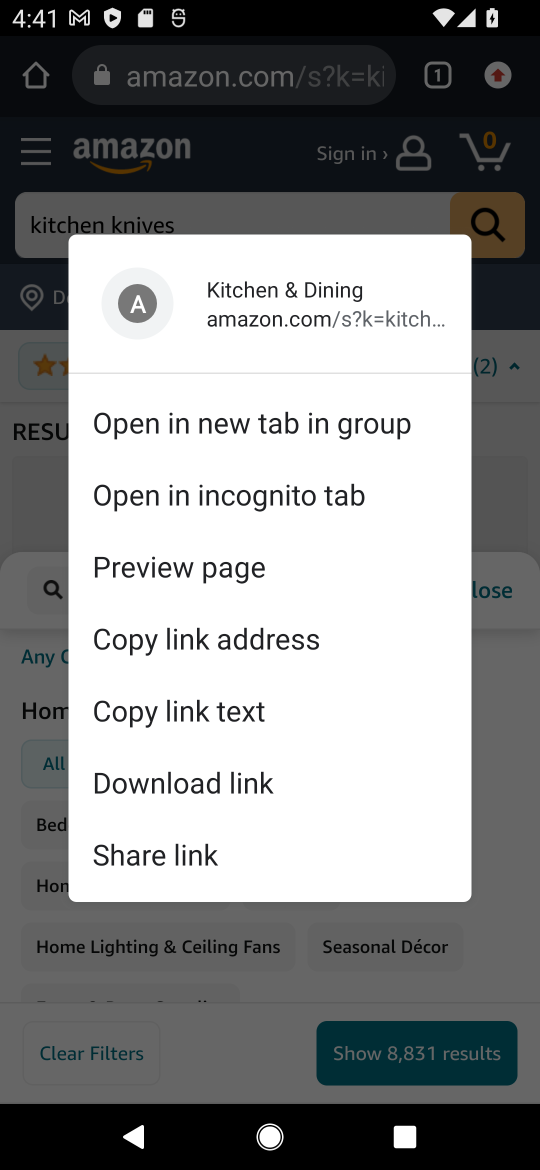
Step 49: click (332, 953)
Your task to perform on an android device: Look up the best rated kitchen knives on Amazon. Image 50: 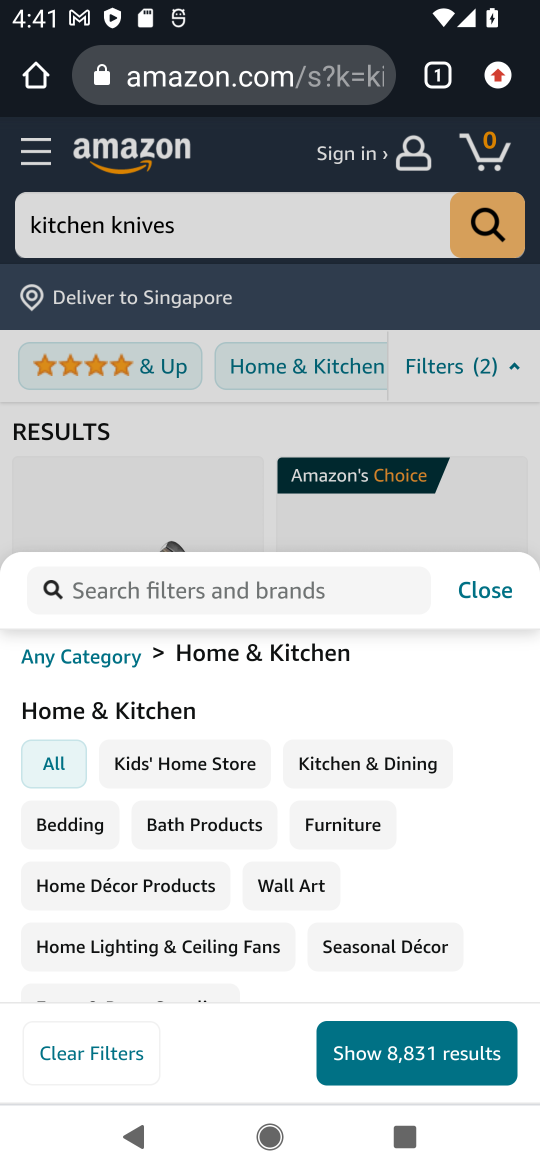
Step 50: drag from (361, 937) to (369, 644)
Your task to perform on an android device: Look up the best rated kitchen knives on Amazon. Image 51: 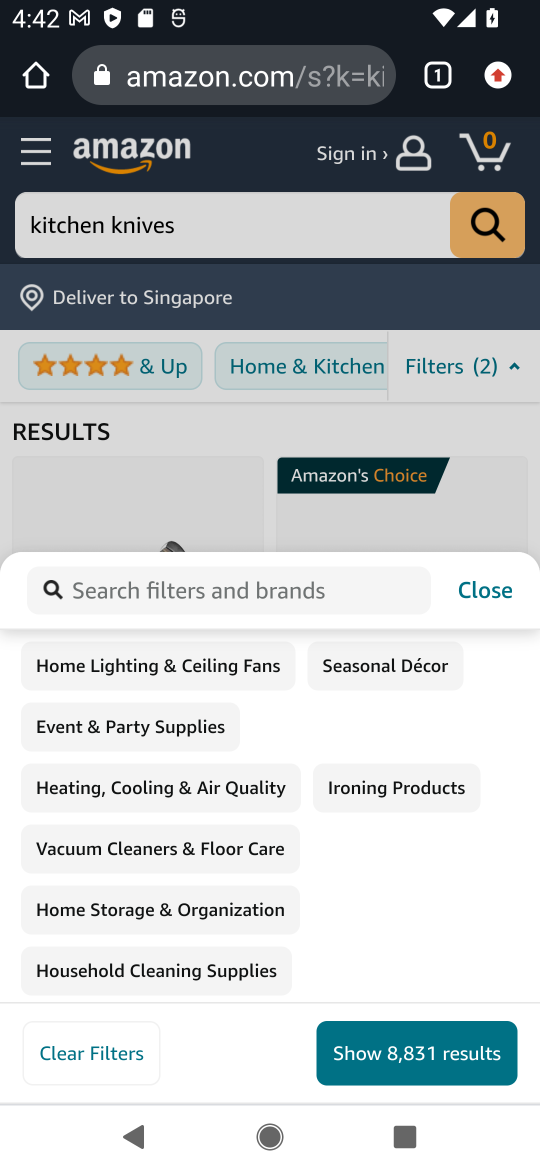
Step 51: drag from (382, 944) to (390, 693)
Your task to perform on an android device: Look up the best rated kitchen knives on Amazon. Image 52: 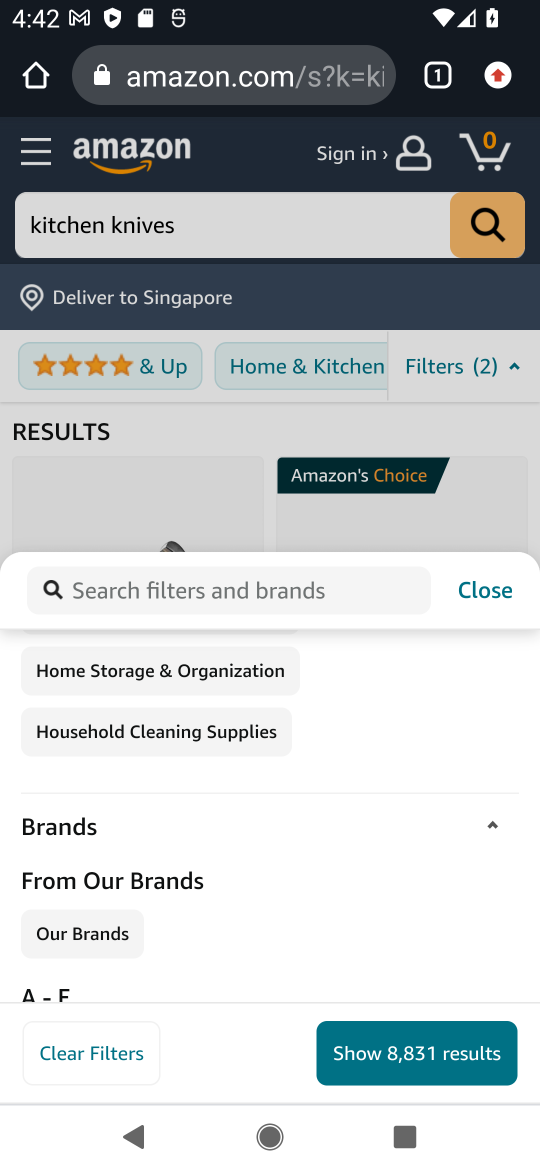
Step 52: drag from (359, 886) to (357, 668)
Your task to perform on an android device: Look up the best rated kitchen knives on Amazon. Image 53: 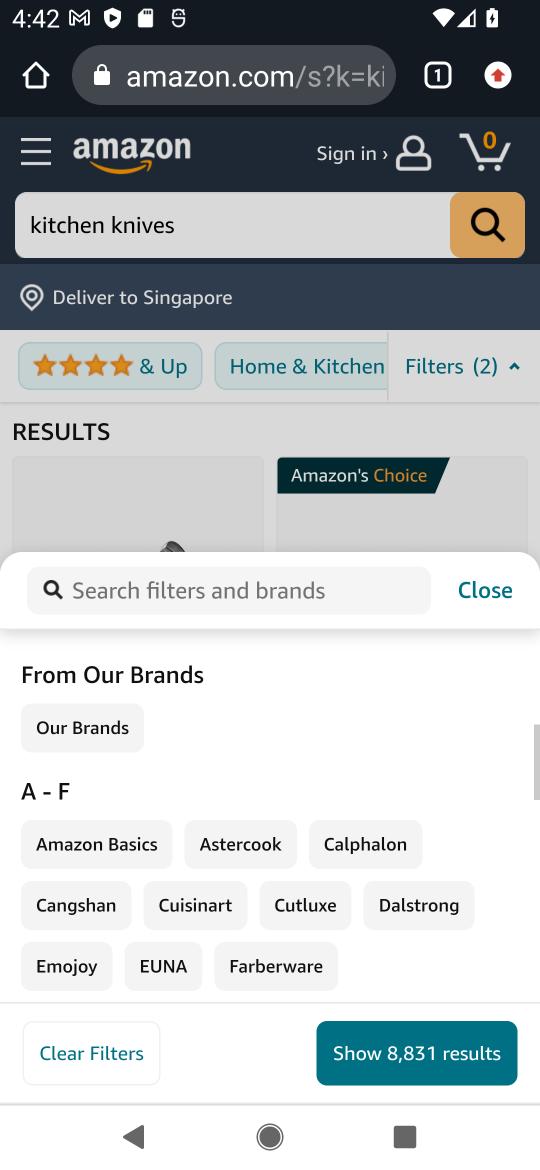
Step 53: drag from (415, 750) to (415, 698)
Your task to perform on an android device: Look up the best rated kitchen knives on Amazon. Image 54: 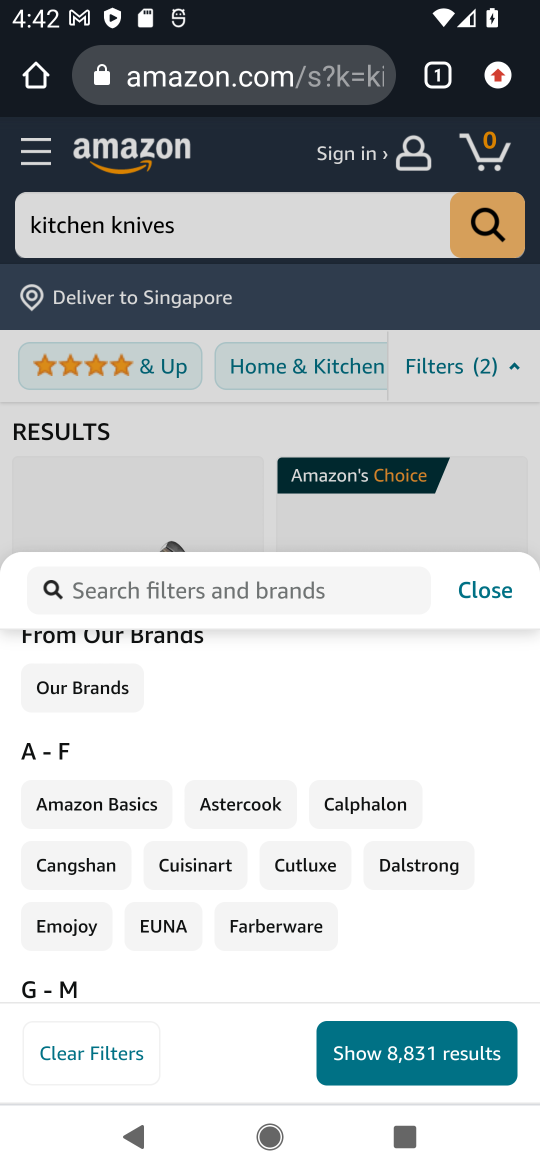
Step 54: drag from (401, 934) to (420, 751)
Your task to perform on an android device: Look up the best rated kitchen knives on Amazon. Image 55: 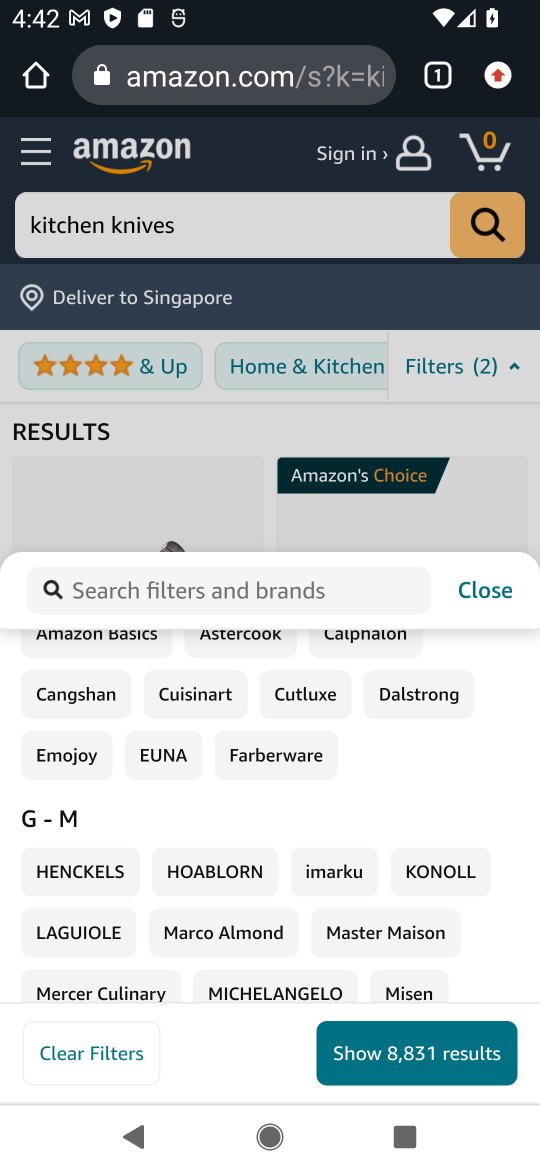
Step 55: drag from (410, 994) to (423, 753)
Your task to perform on an android device: Look up the best rated kitchen knives on Amazon. Image 56: 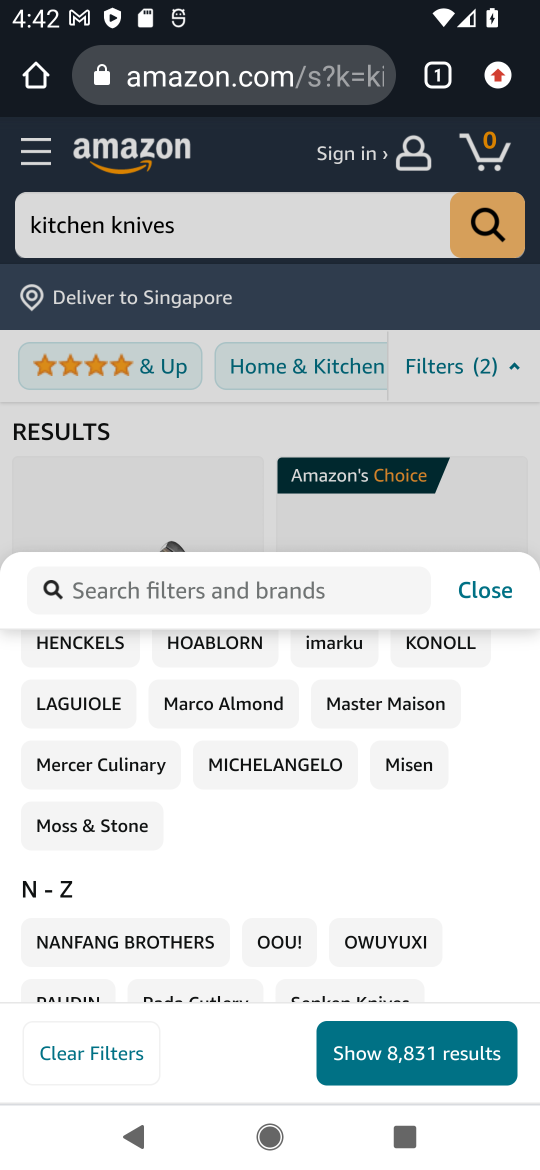
Step 56: drag from (393, 942) to (414, 721)
Your task to perform on an android device: Look up the best rated kitchen knives on Amazon. Image 57: 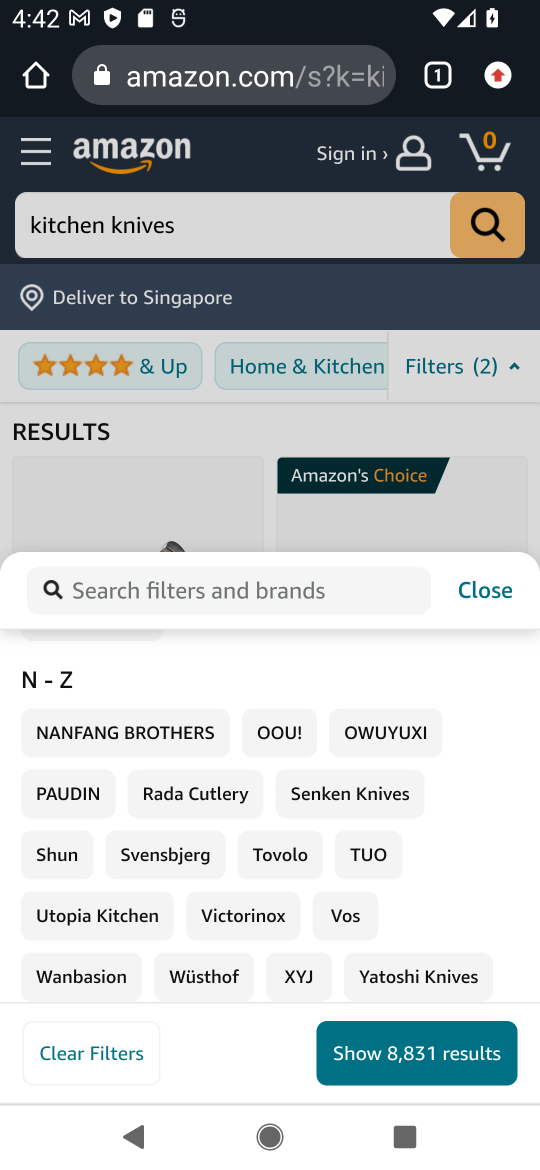
Step 57: drag from (385, 931) to (389, 671)
Your task to perform on an android device: Look up the best rated kitchen knives on Amazon. Image 58: 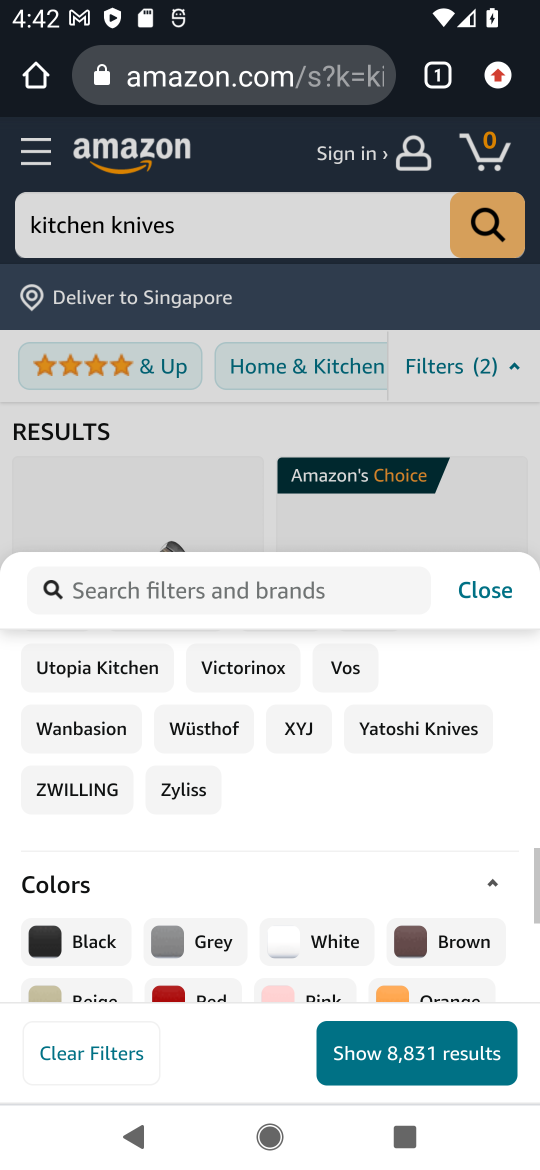
Step 58: drag from (388, 925) to (400, 685)
Your task to perform on an android device: Look up the best rated kitchen knives on Amazon. Image 59: 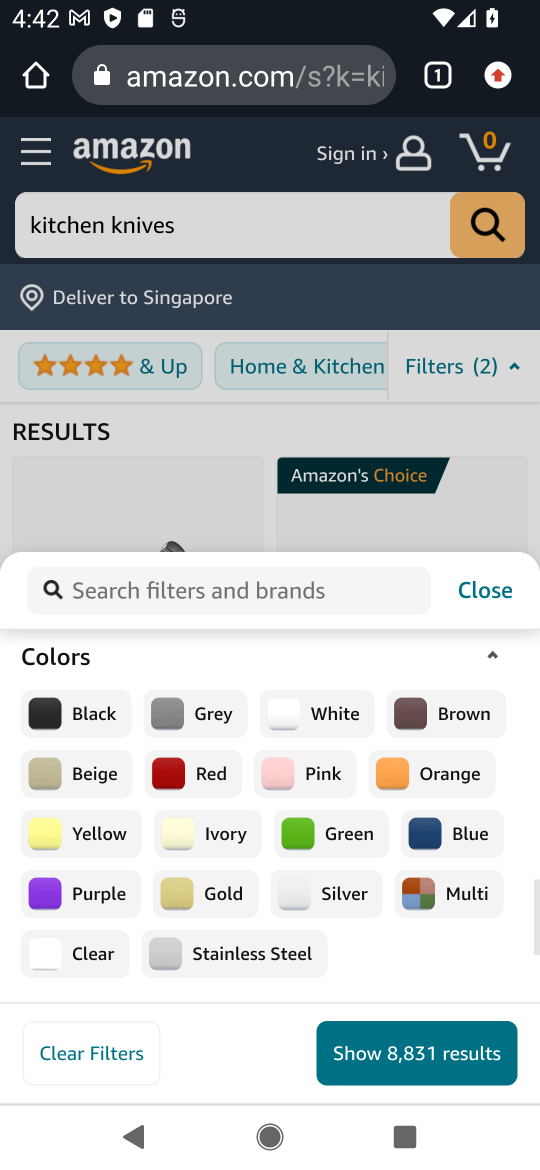
Step 59: drag from (388, 990) to (410, 707)
Your task to perform on an android device: Look up the best rated kitchen knives on Amazon. Image 60: 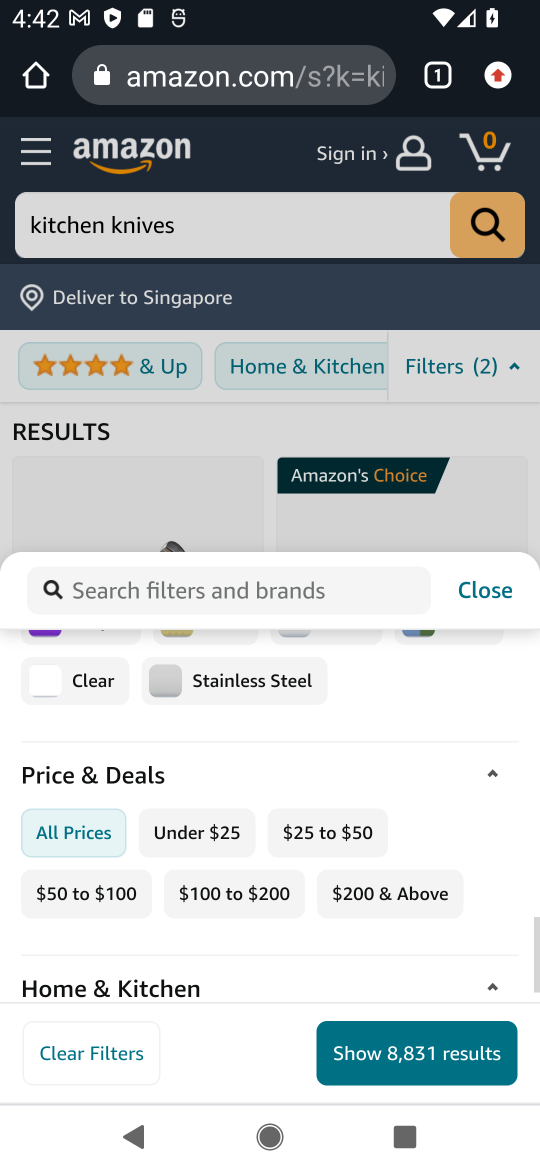
Step 60: drag from (458, 759) to (458, 705)
Your task to perform on an android device: Look up the best rated kitchen knives on Amazon. Image 61: 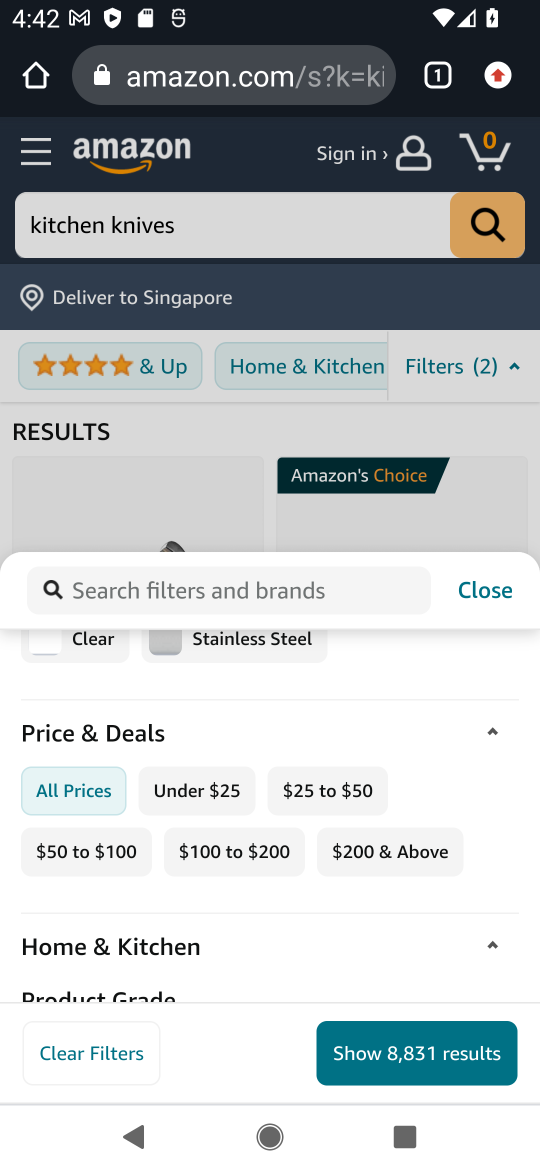
Step 61: drag from (378, 914) to (386, 651)
Your task to perform on an android device: Look up the best rated kitchen knives on Amazon. Image 62: 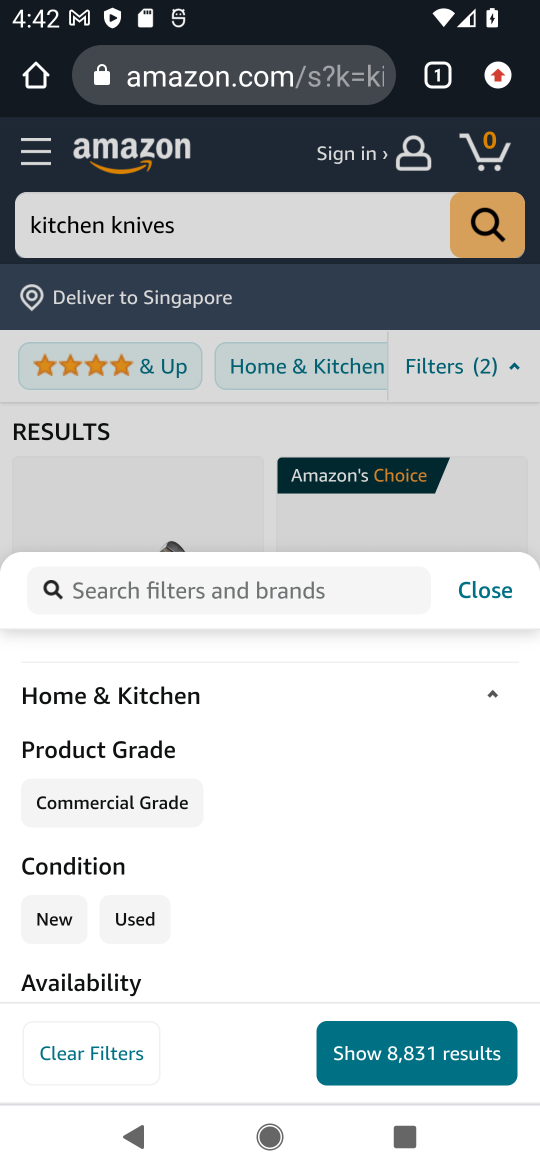
Step 62: drag from (356, 838) to (365, 691)
Your task to perform on an android device: Look up the best rated kitchen knives on Amazon. Image 63: 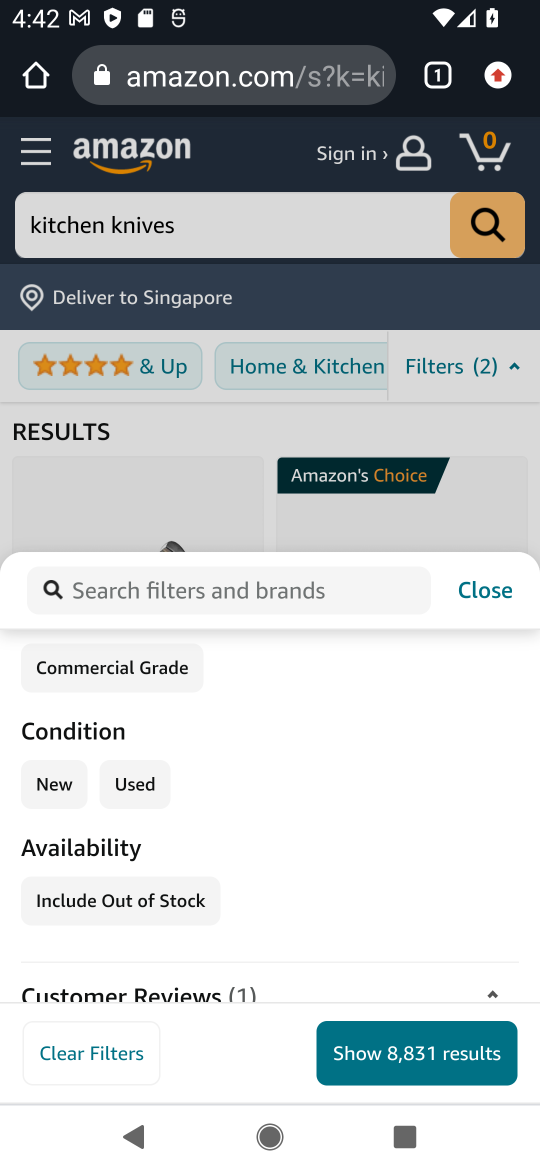
Step 63: drag from (377, 940) to (403, 712)
Your task to perform on an android device: Look up the best rated kitchen knives on Amazon. Image 64: 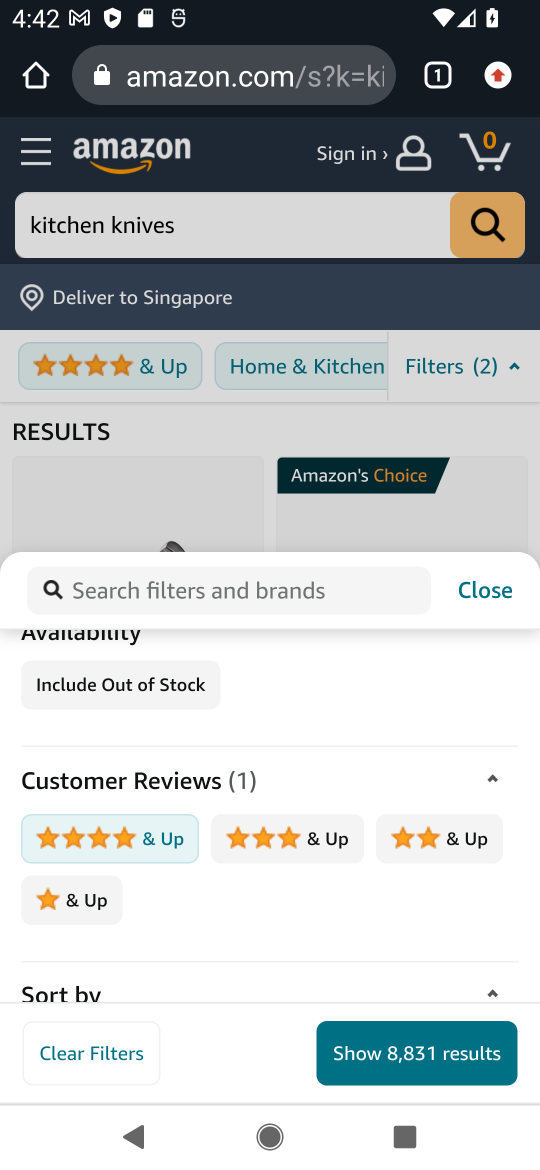
Step 64: click (445, 1059)
Your task to perform on an android device: Look up the best rated kitchen knives on Amazon. Image 65: 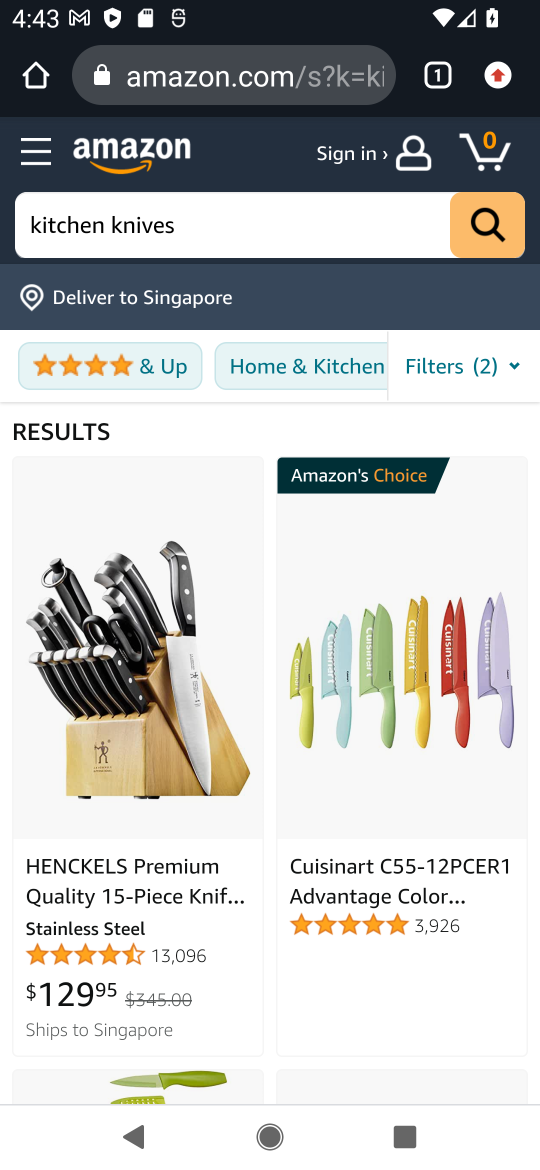
Step 65: drag from (457, 740) to (507, 370)
Your task to perform on an android device: Look up the best rated kitchen knives on Amazon. Image 66: 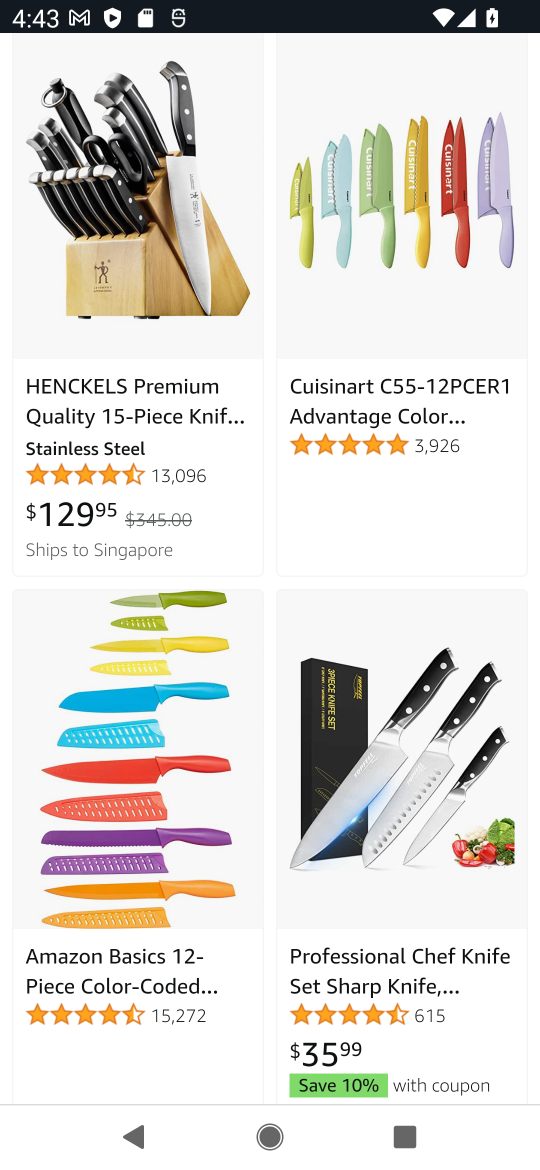
Step 66: drag from (217, 695) to (217, 531)
Your task to perform on an android device: Look up the best rated kitchen knives on Amazon. Image 67: 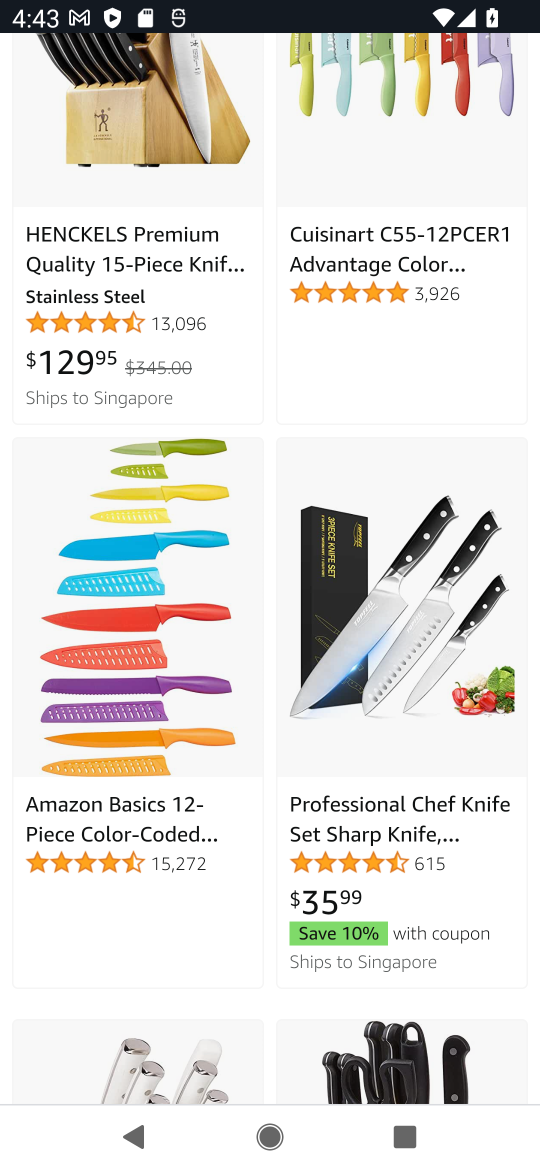
Step 67: drag from (268, 716) to (288, 307)
Your task to perform on an android device: Look up the best rated kitchen knives on Amazon. Image 68: 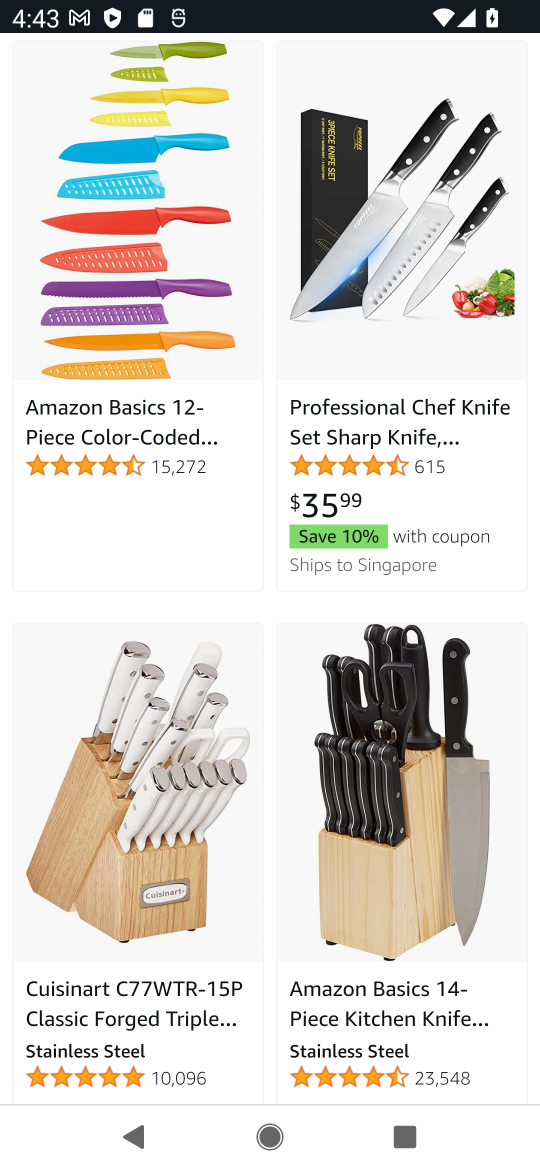
Step 68: drag from (317, 726) to (348, 402)
Your task to perform on an android device: Look up the best rated kitchen knives on Amazon. Image 69: 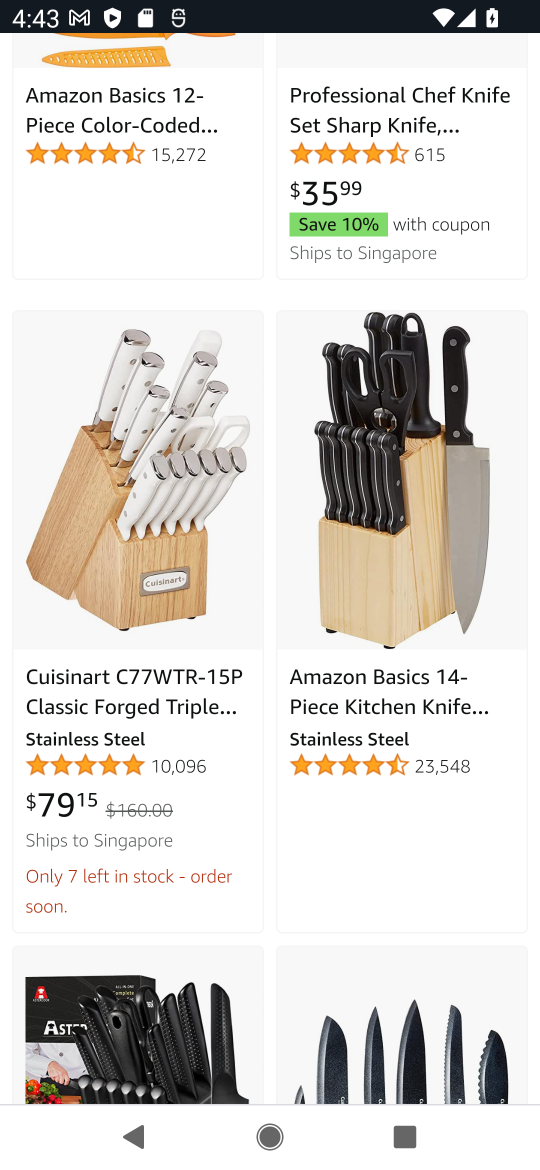
Step 69: drag from (262, 898) to (307, 315)
Your task to perform on an android device: Look up the best rated kitchen knives on Amazon. Image 70: 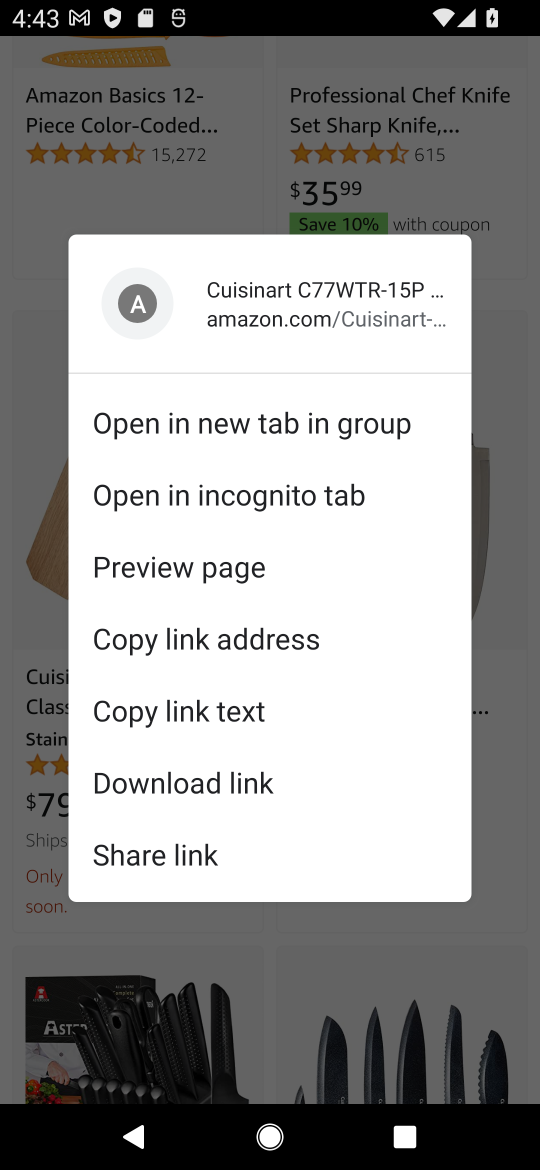
Step 70: click (509, 513)
Your task to perform on an android device: Look up the best rated kitchen knives on Amazon. Image 71: 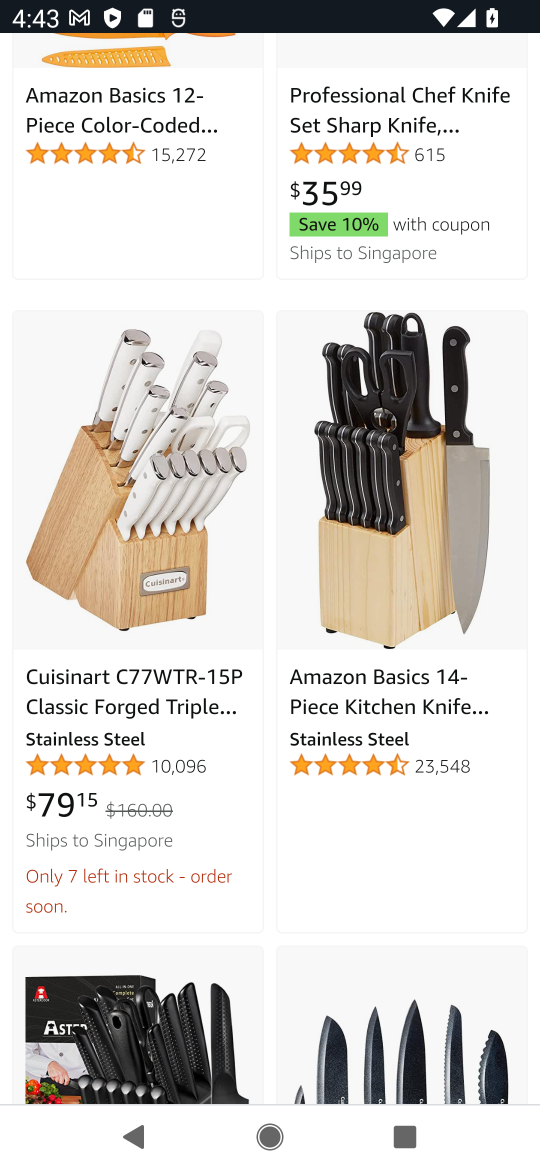
Step 71: drag from (315, 857) to (319, 49)
Your task to perform on an android device: Look up the best rated kitchen knives on Amazon. Image 72: 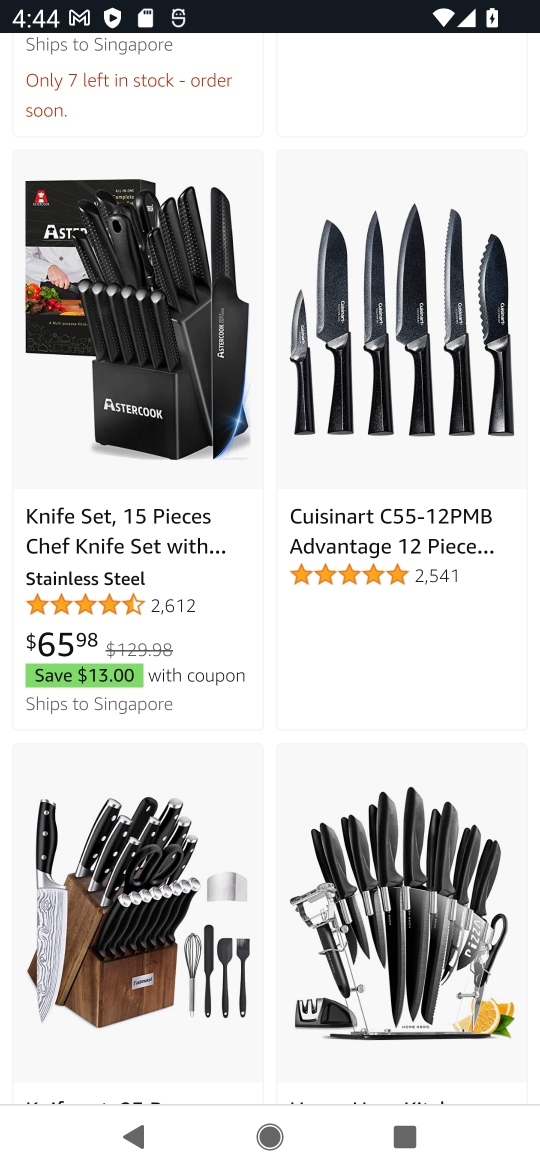
Step 72: drag from (346, 738) to (354, 441)
Your task to perform on an android device: Look up the best rated kitchen knives on Amazon. Image 73: 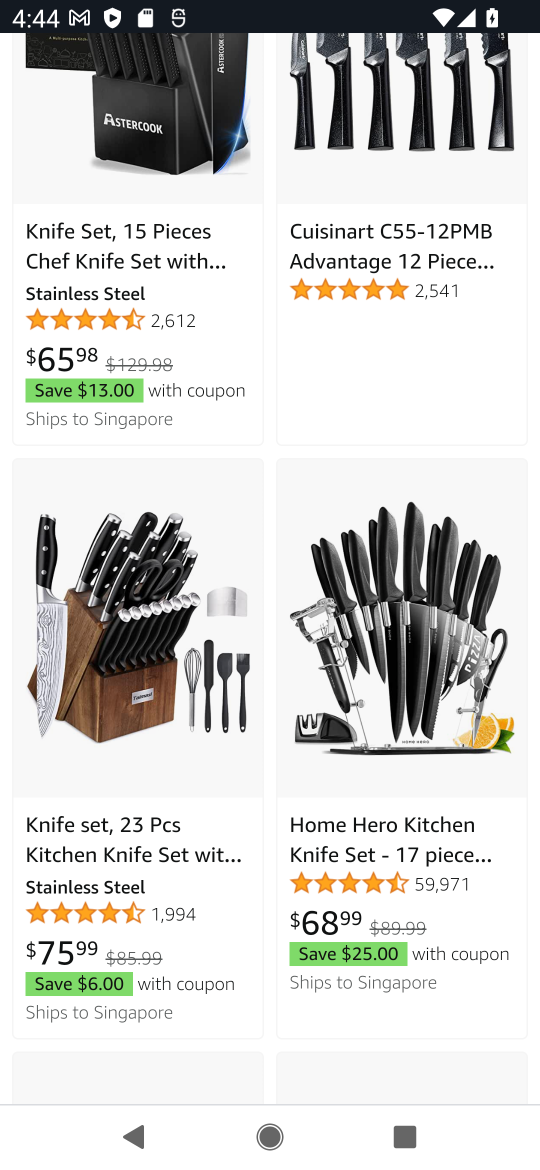
Step 73: drag from (317, 812) to (347, 541)
Your task to perform on an android device: Look up the best rated kitchen knives on Amazon. Image 74: 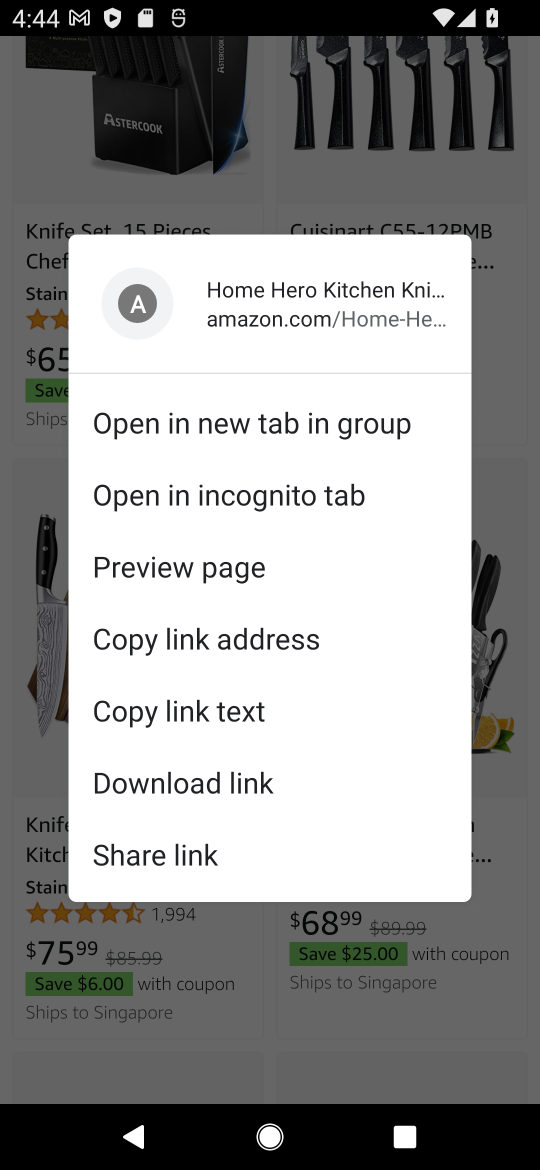
Step 74: click (434, 983)
Your task to perform on an android device: Look up the best rated kitchen knives on Amazon. Image 75: 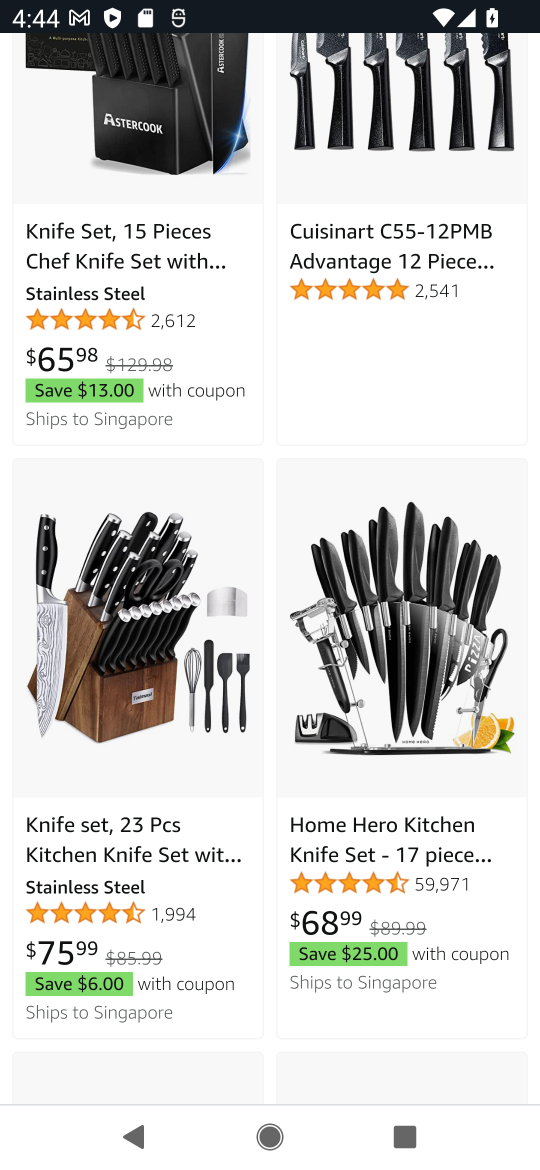
Step 75: drag from (272, 877) to (262, 450)
Your task to perform on an android device: Look up the best rated kitchen knives on Amazon. Image 76: 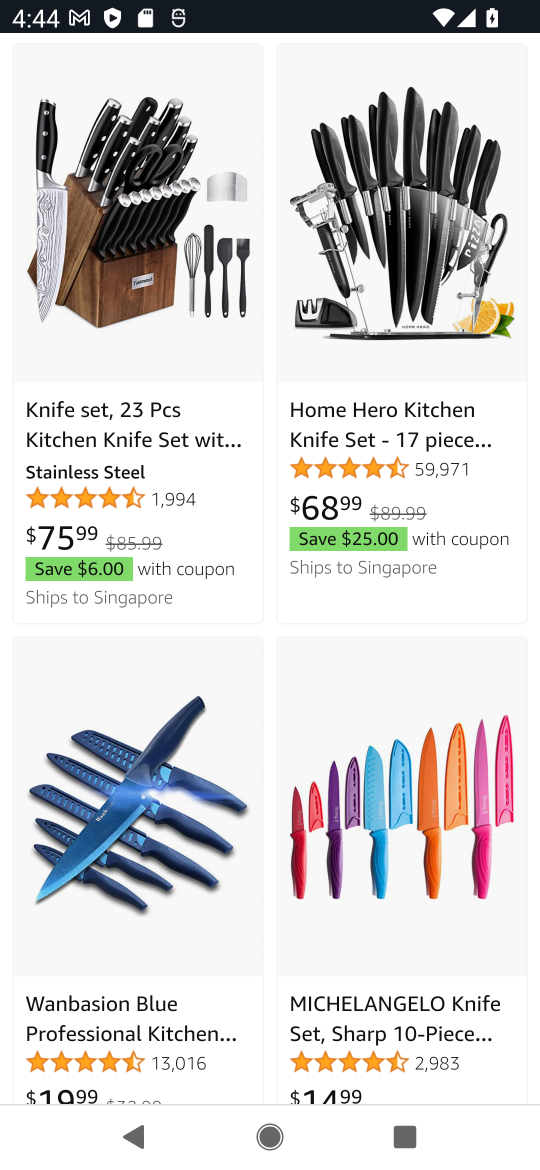
Step 76: drag from (272, 711) to (276, 409)
Your task to perform on an android device: Look up the best rated kitchen knives on Amazon. Image 77: 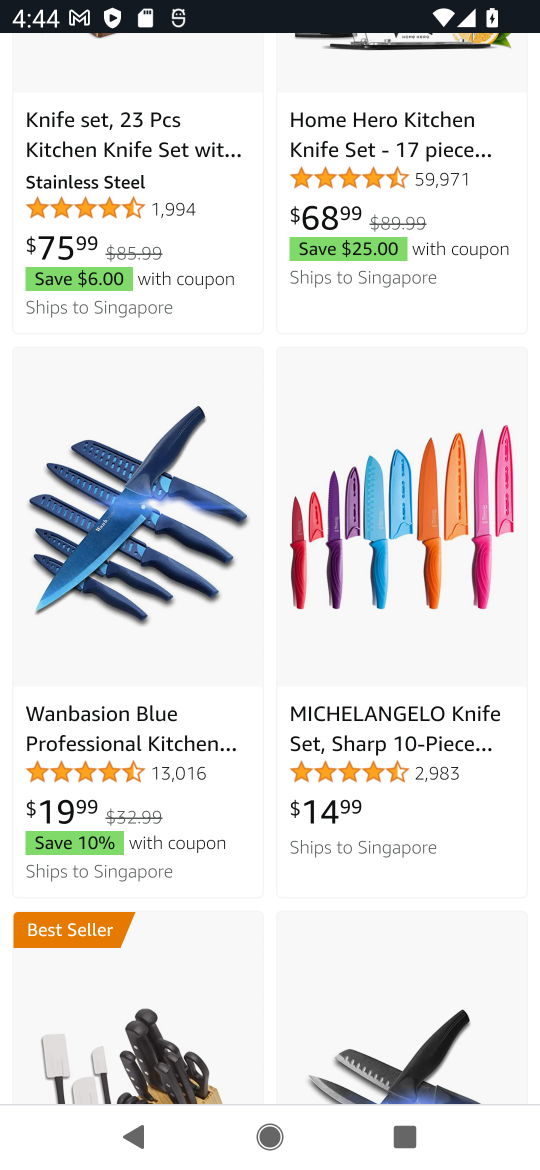
Step 77: press enter
Your task to perform on an android device: Look up the best rated kitchen knives on Amazon. Image 78: 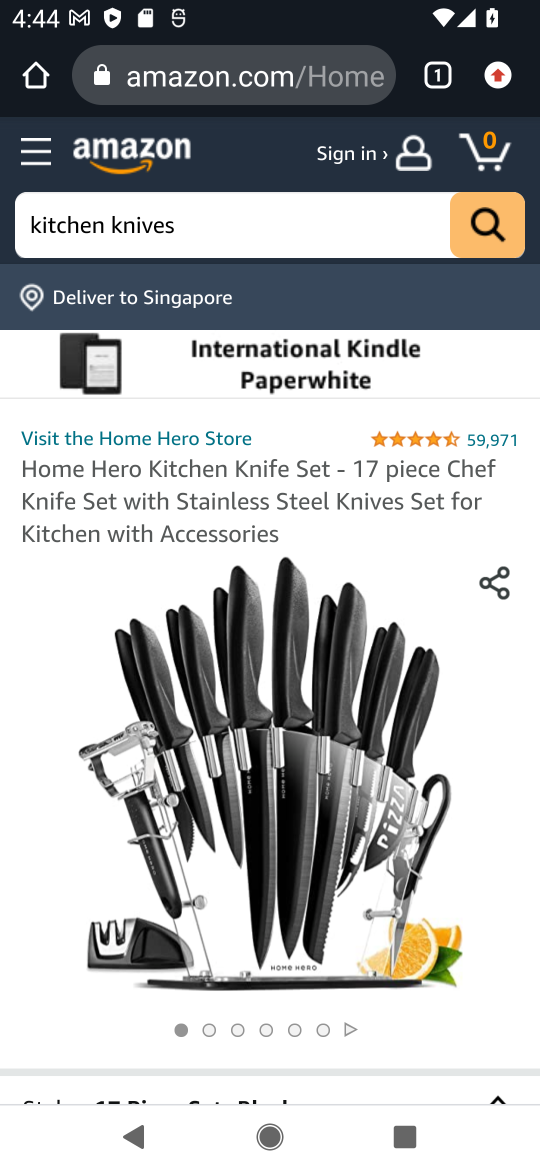
Step 78: click (243, 71)
Your task to perform on an android device: Look up the best rated kitchen knives on Amazon. Image 79: 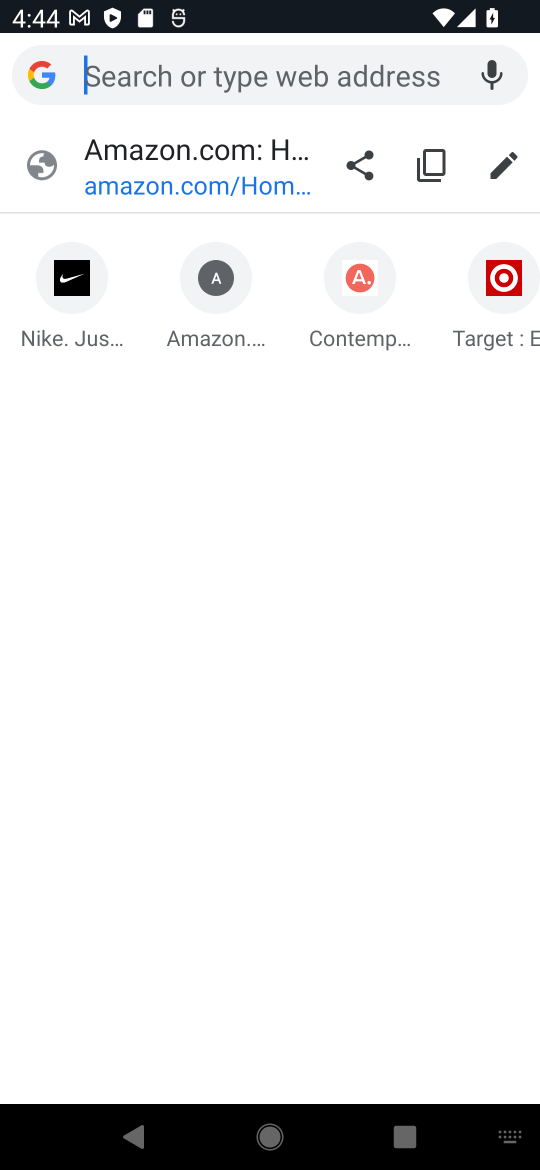
Step 79: click (258, 624)
Your task to perform on an android device: Look up the best rated kitchen knives on Amazon. Image 80: 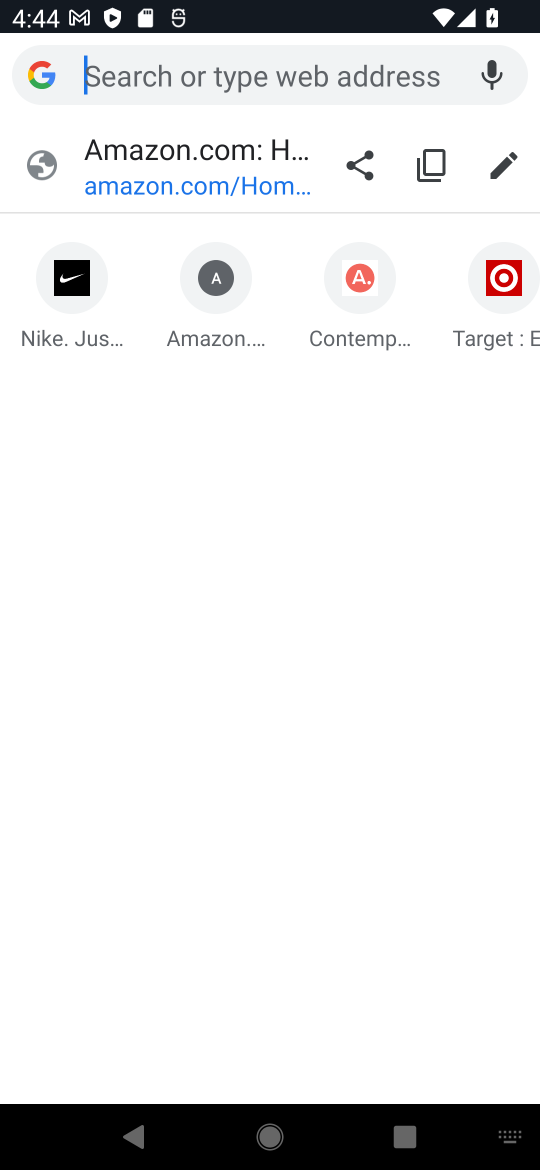
Step 80: task complete